Your task to perform on an android device: Empty the shopping cart on bestbuy. Search for "asus zenbook" on bestbuy, select the first entry, and add it to the cart. Image 0: 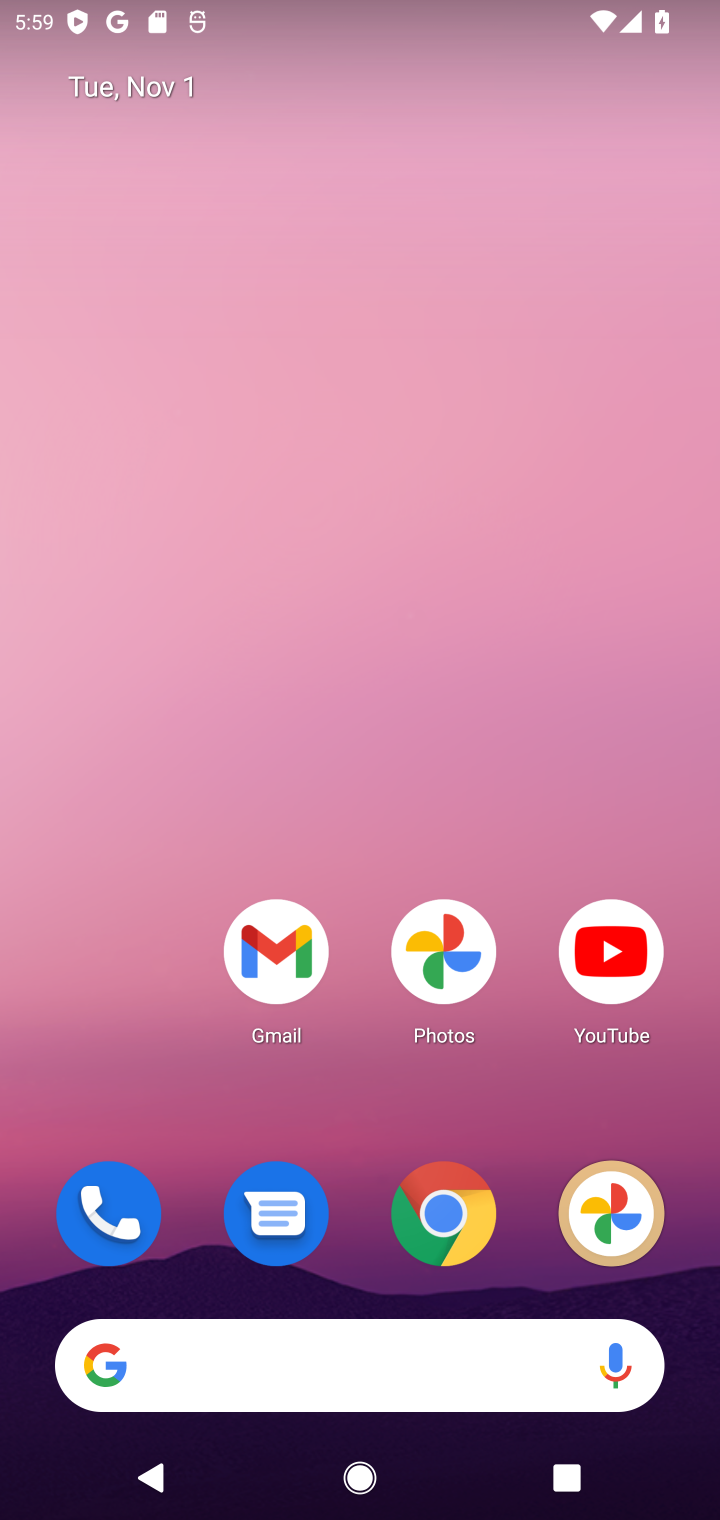
Step 0: click (444, 1230)
Your task to perform on an android device: Empty the shopping cart on bestbuy. Search for "asus zenbook" on bestbuy, select the first entry, and add it to the cart. Image 1: 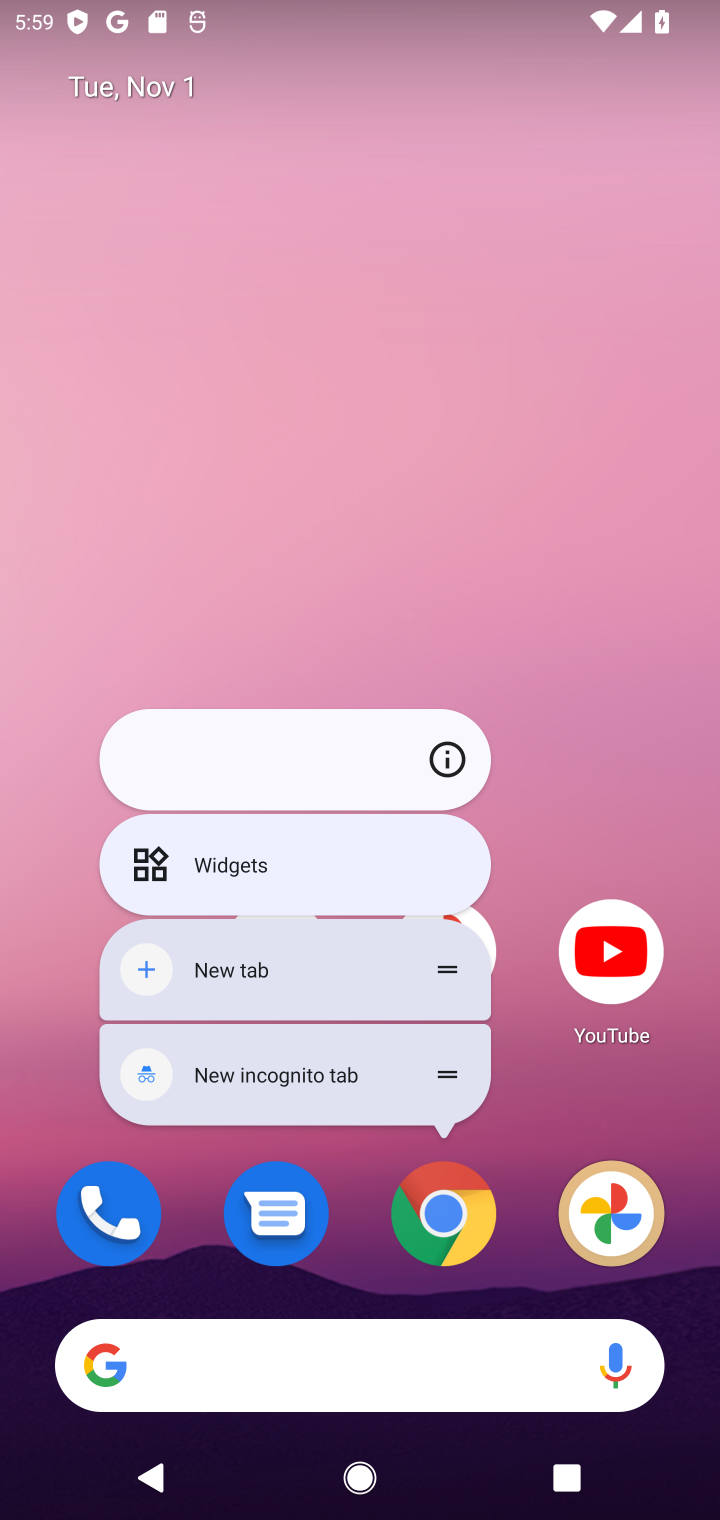
Step 1: click (443, 1214)
Your task to perform on an android device: Empty the shopping cart on bestbuy. Search for "asus zenbook" on bestbuy, select the first entry, and add it to the cart. Image 2: 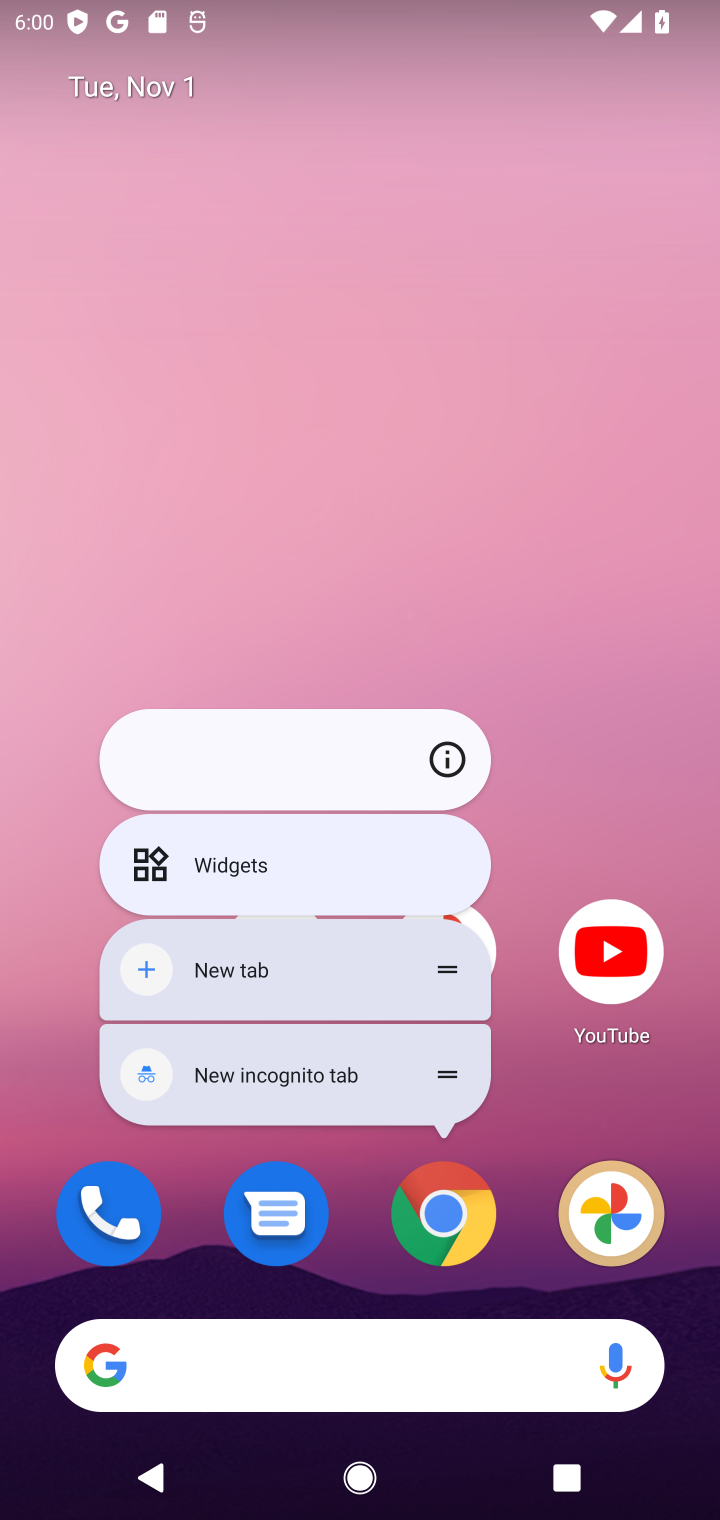
Step 2: click (448, 1218)
Your task to perform on an android device: Empty the shopping cart on bestbuy. Search for "asus zenbook" on bestbuy, select the first entry, and add it to the cart. Image 3: 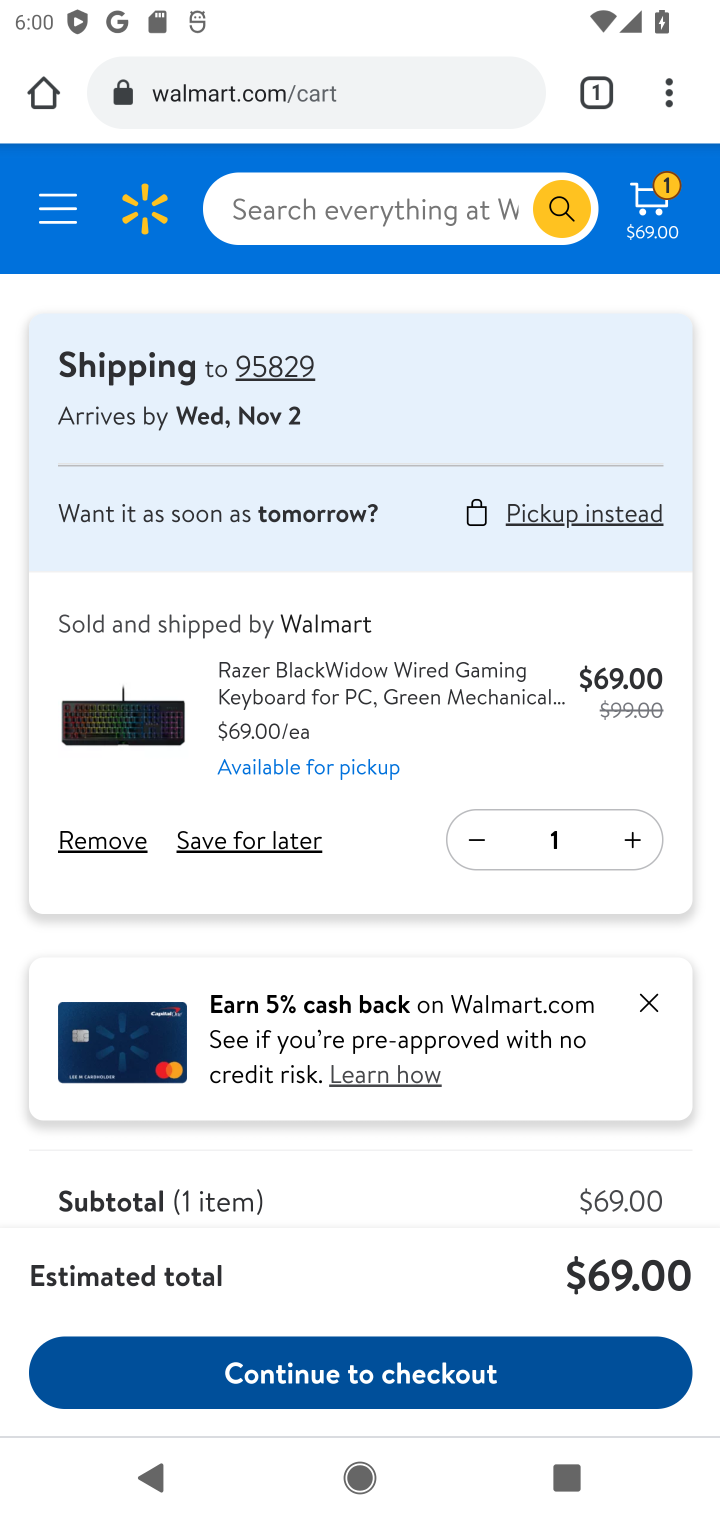
Step 3: click (369, 121)
Your task to perform on an android device: Empty the shopping cart on bestbuy. Search for "asus zenbook" on bestbuy, select the first entry, and add it to the cart. Image 4: 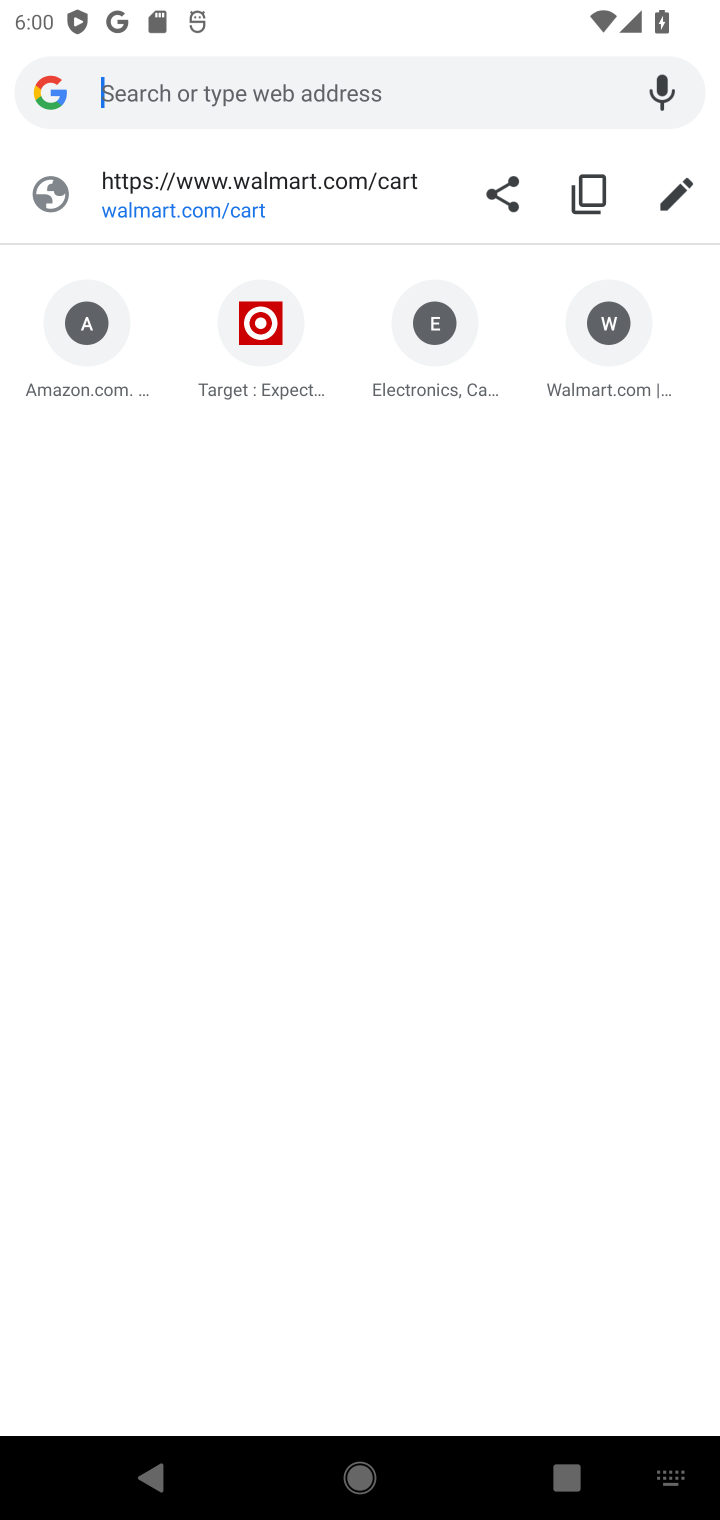
Step 4: type "asus zenbook"
Your task to perform on an android device: Empty the shopping cart on bestbuy. Search for "asus zenbook" on bestbuy, select the first entry, and add it to the cart. Image 5: 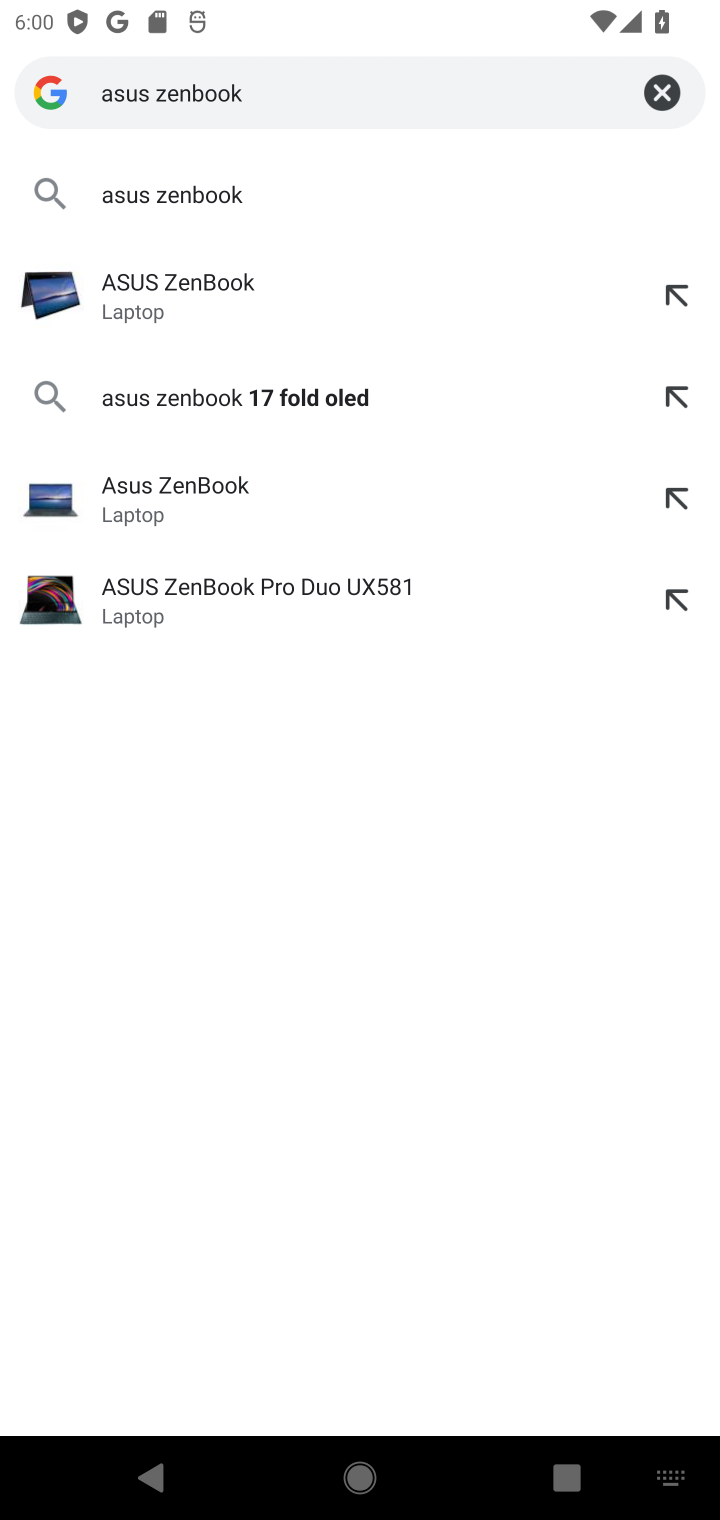
Step 5: click (320, 199)
Your task to perform on an android device: Empty the shopping cart on bestbuy. Search for "asus zenbook" on bestbuy, select the first entry, and add it to the cart. Image 6: 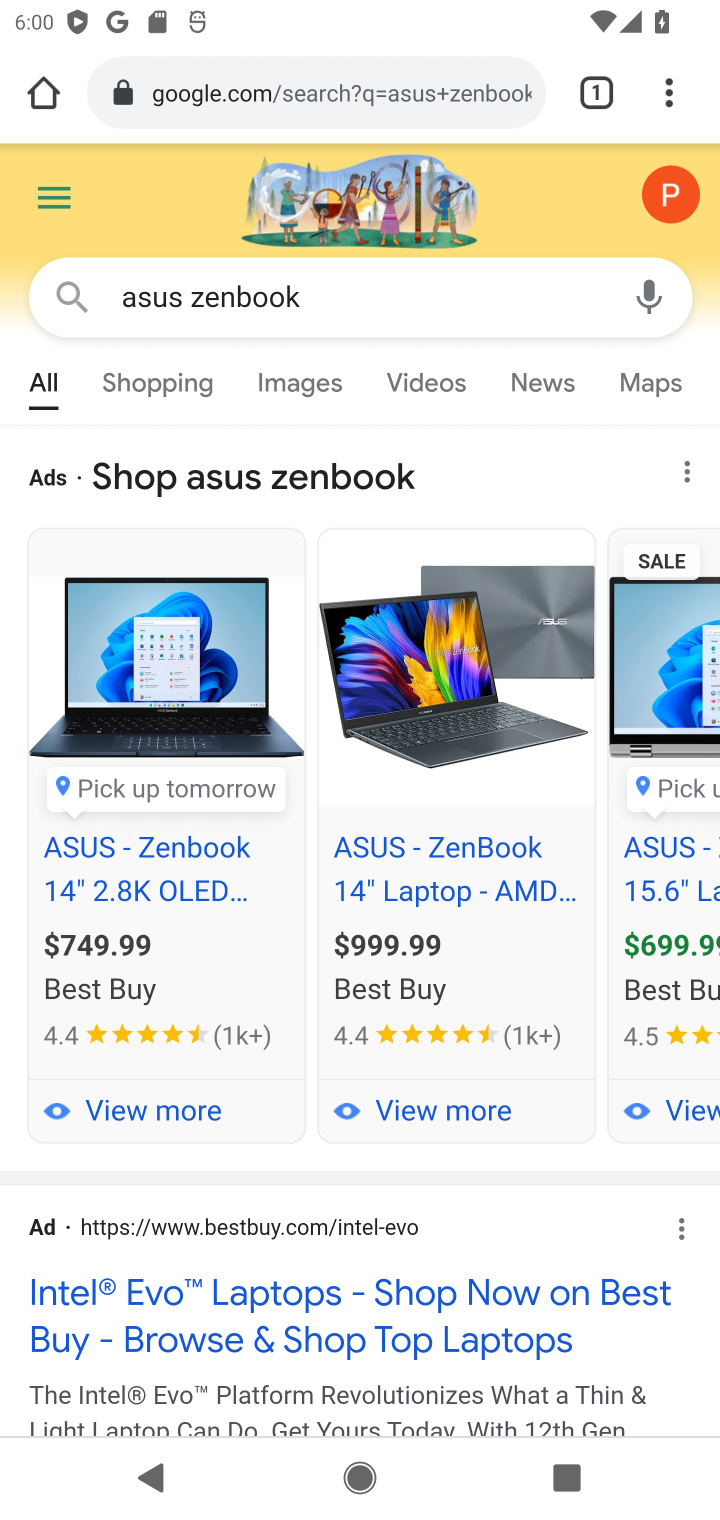
Step 6: click (207, 73)
Your task to perform on an android device: Empty the shopping cart on bestbuy. Search for "asus zenbook" on bestbuy, select the first entry, and add it to the cart. Image 7: 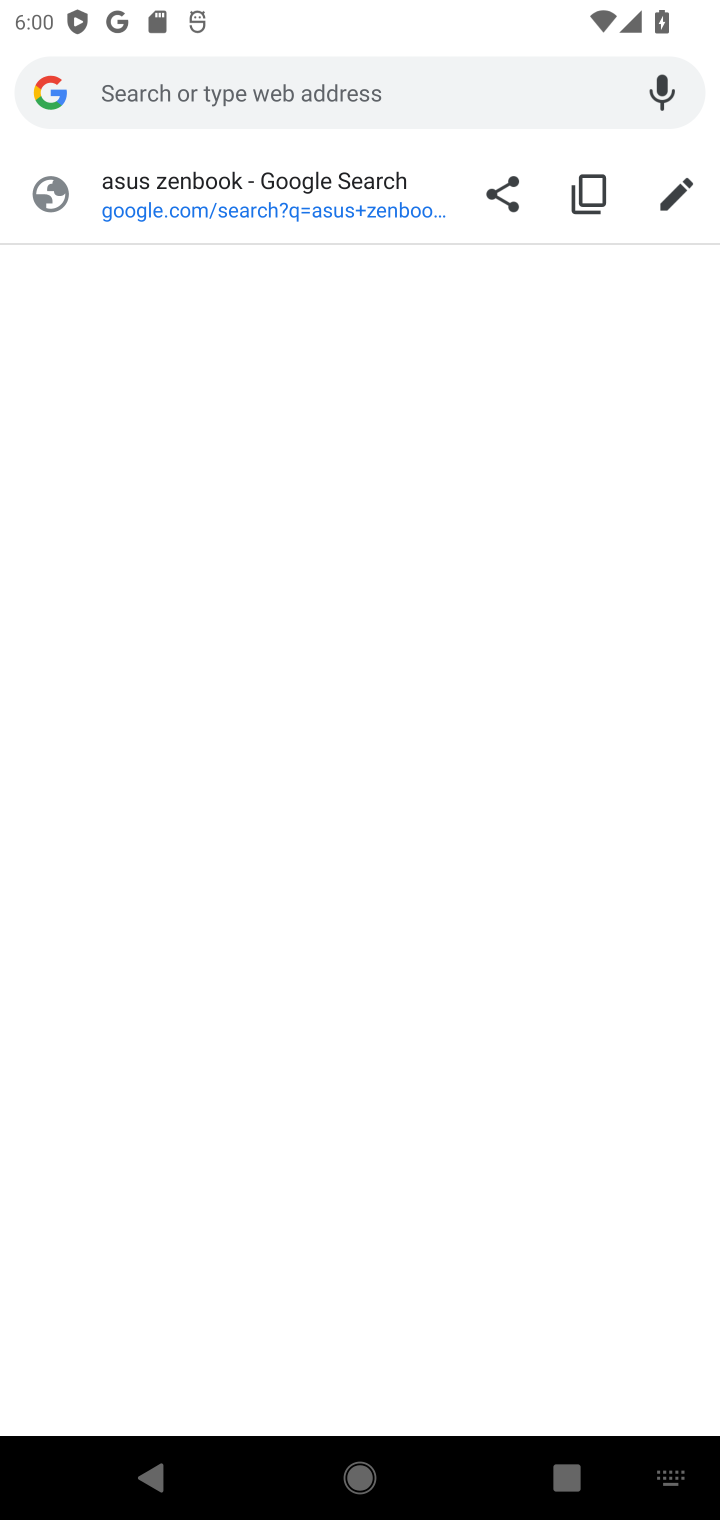
Step 7: type "best buy"
Your task to perform on an android device: Empty the shopping cart on bestbuy. Search for "asus zenbook" on bestbuy, select the first entry, and add it to the cart. Image 8: 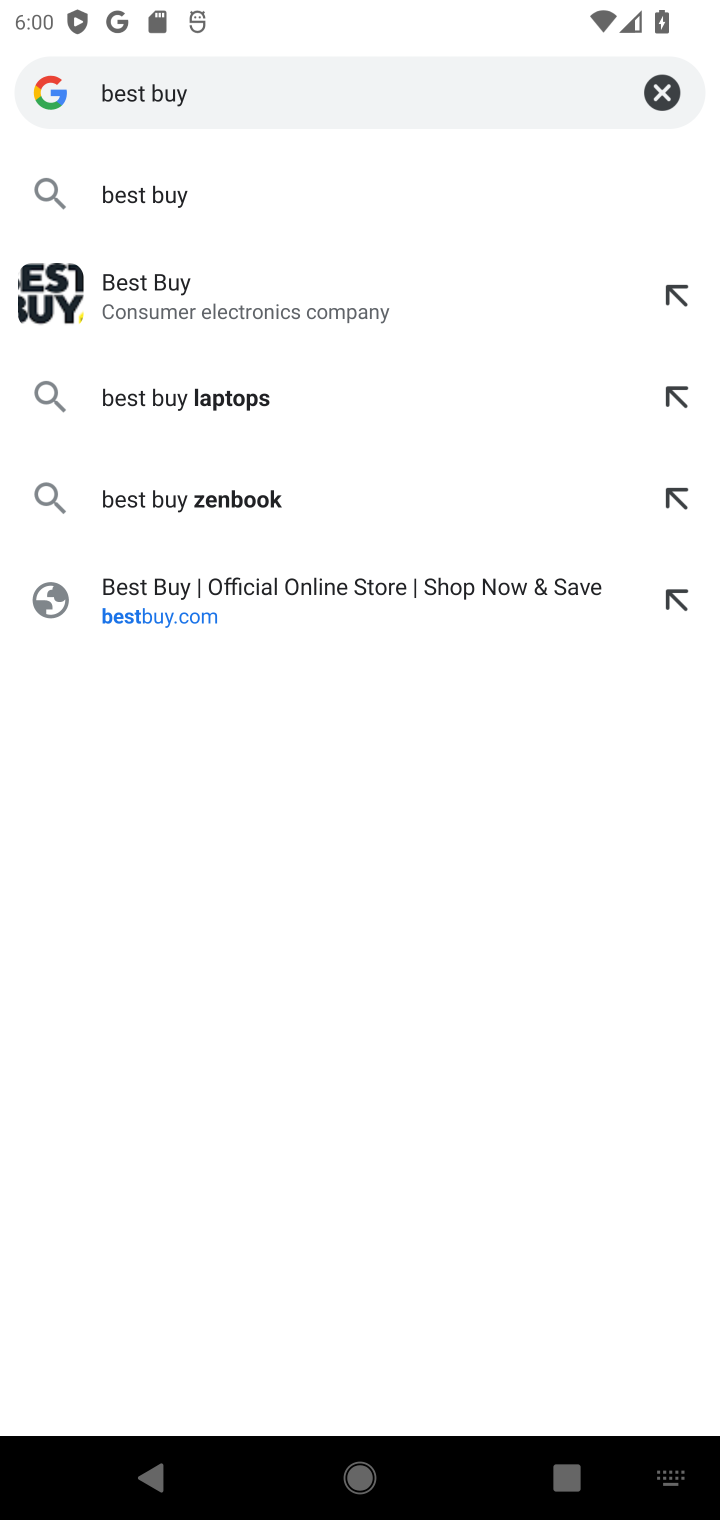
Step 8: click (148, 319)
Your task to perform on an android device: Empty the shopping cart on bestbuy. Search for "asus zenbook" on bestbuy, select the first entry, and add it to the cart. Image 9: 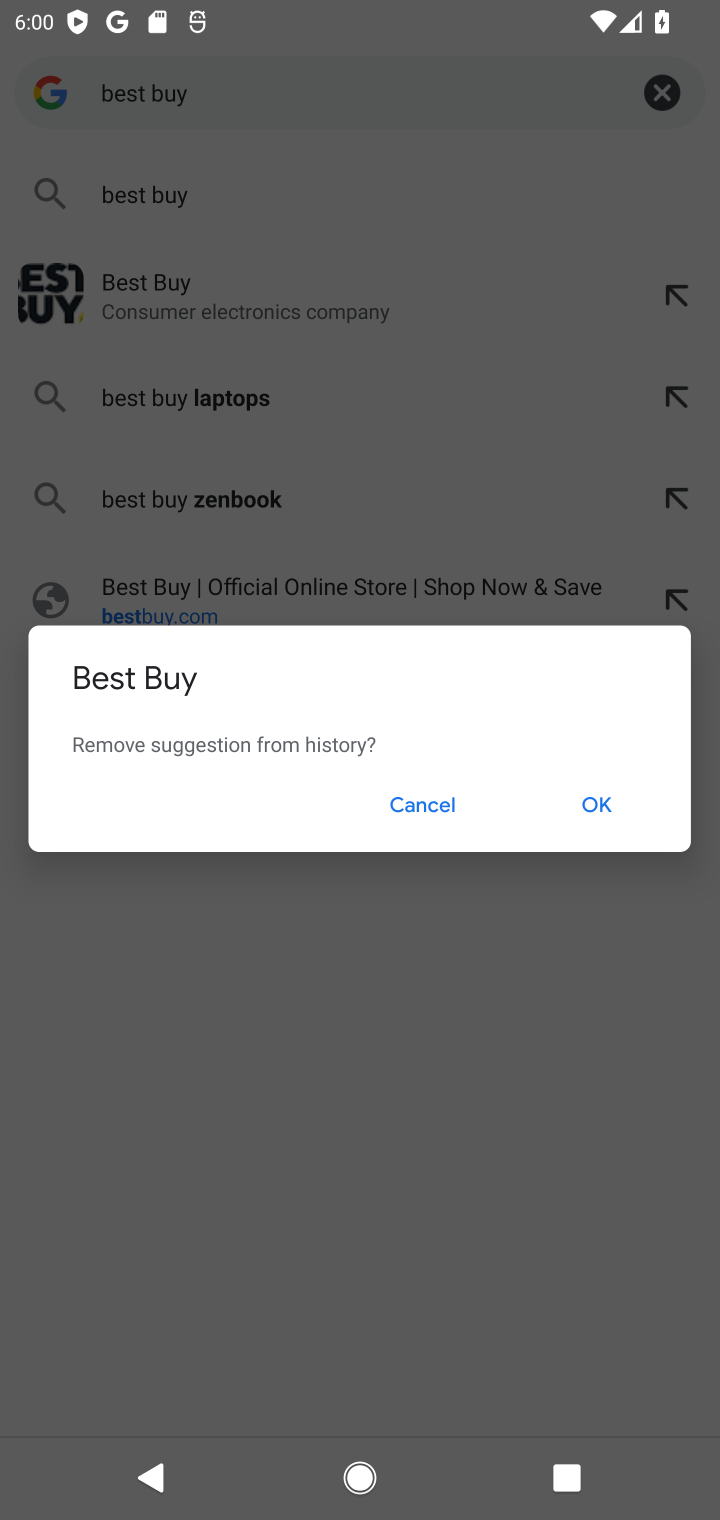
Step 9: click (601, 826)
Your task to perform on an android device: Empty the shopping cart on bestbuy. Search for "asus zenbook" on bestbuy, select the first entry, and add it to the cart. Image 10: 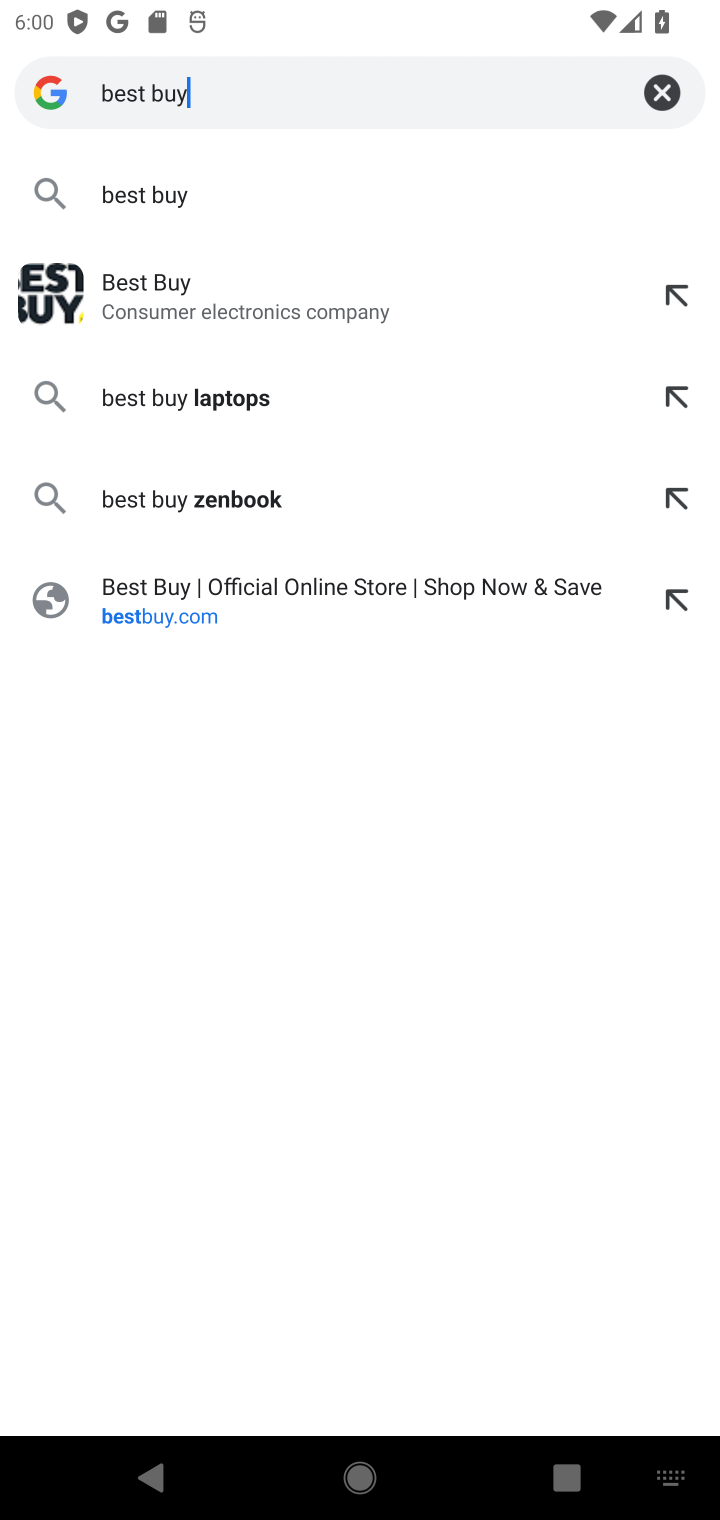
Step 10: click (247, 584)
Your task to perform on an android device: Empty the shopping cart on bestbuy. Search for "asus zenbook" on bestbuy, select the first entry, and add it to the cart. Image 11: 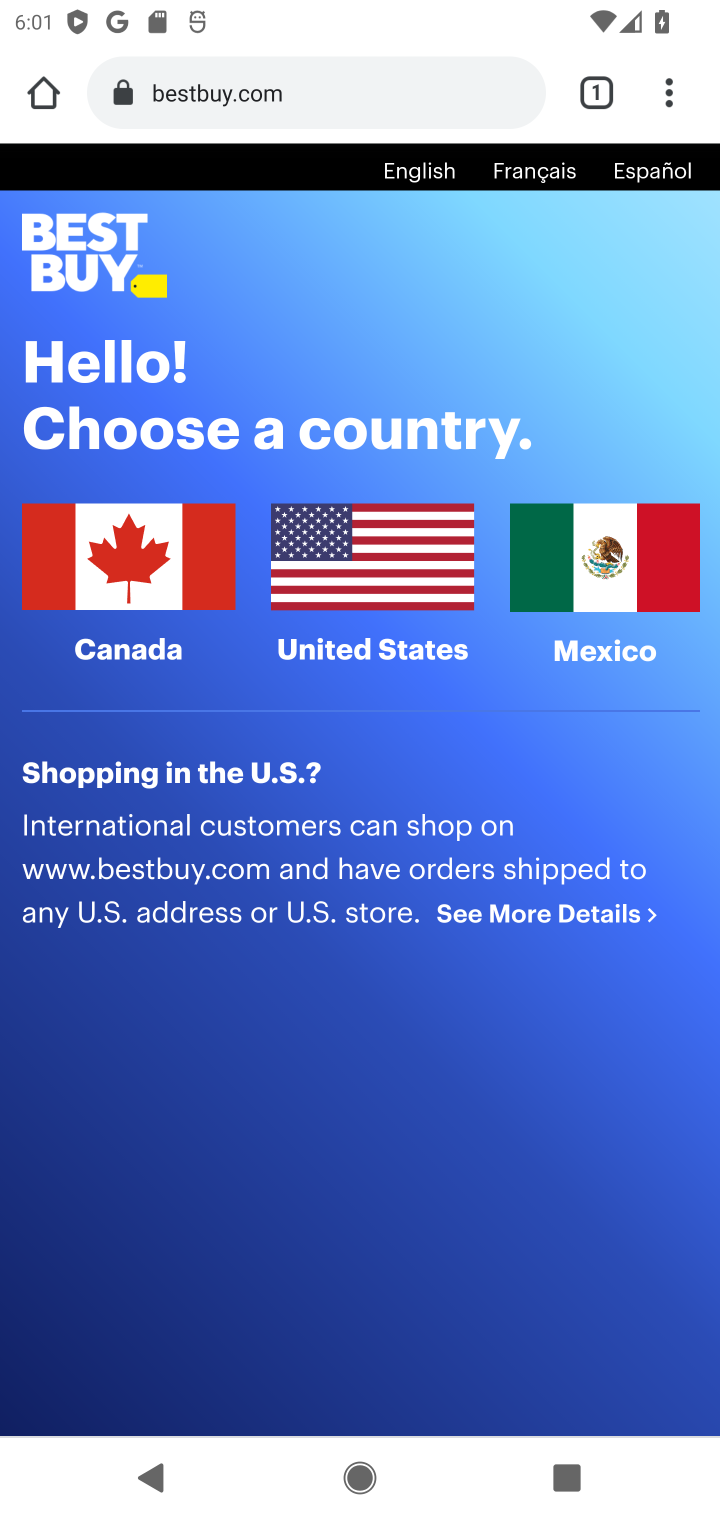
Step 11: click (284, 552)
Your task to perform on an android device: Empty the shopping cart on bestbuy. Search for "asus zenbook" on bestbuy, select the first entry, and add it to the cart. Image 12: 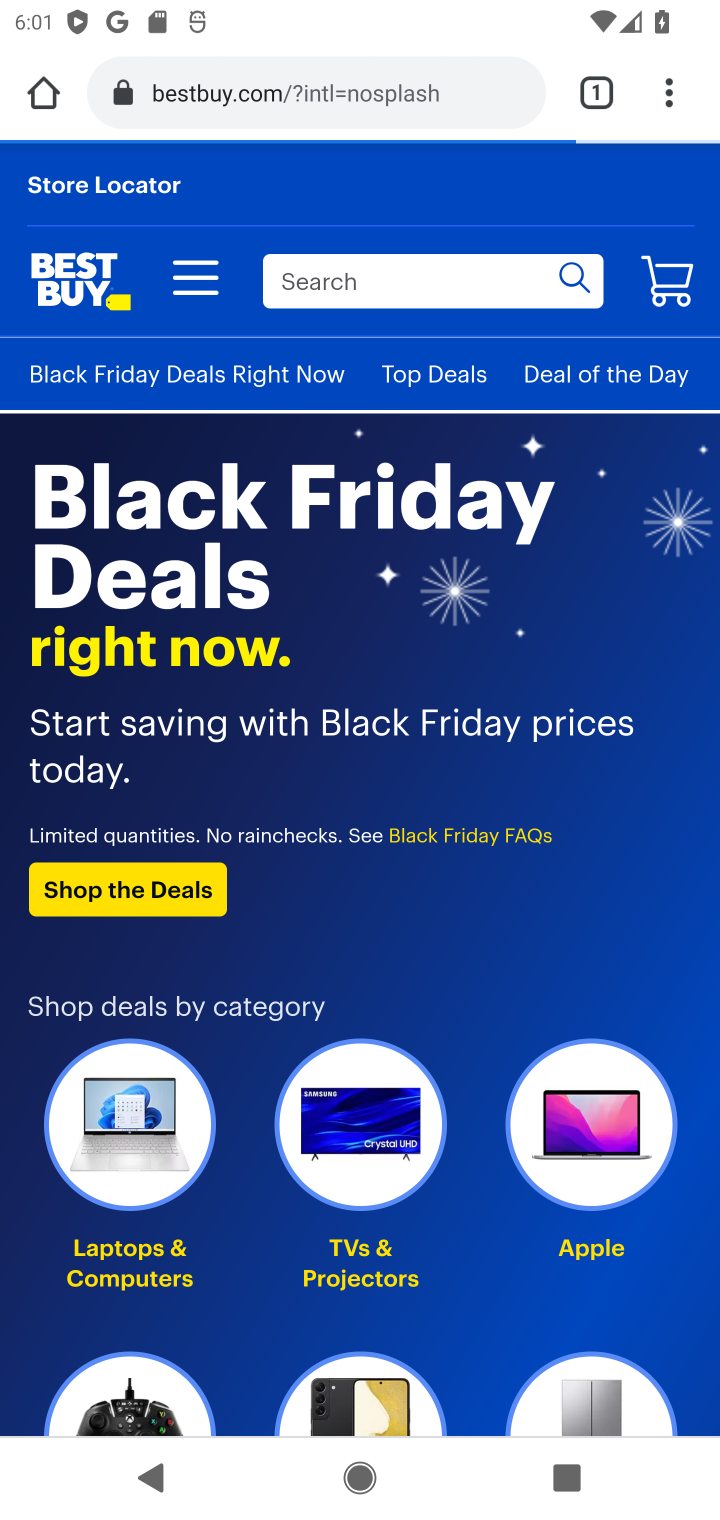
Step 12: click (329, 273)
Your task to perform on an android device: Empty the shopping cart on bestbuy. Search for "asus zenbook" on bestbuy, select the first entry, and add it to the cart. Image 13: 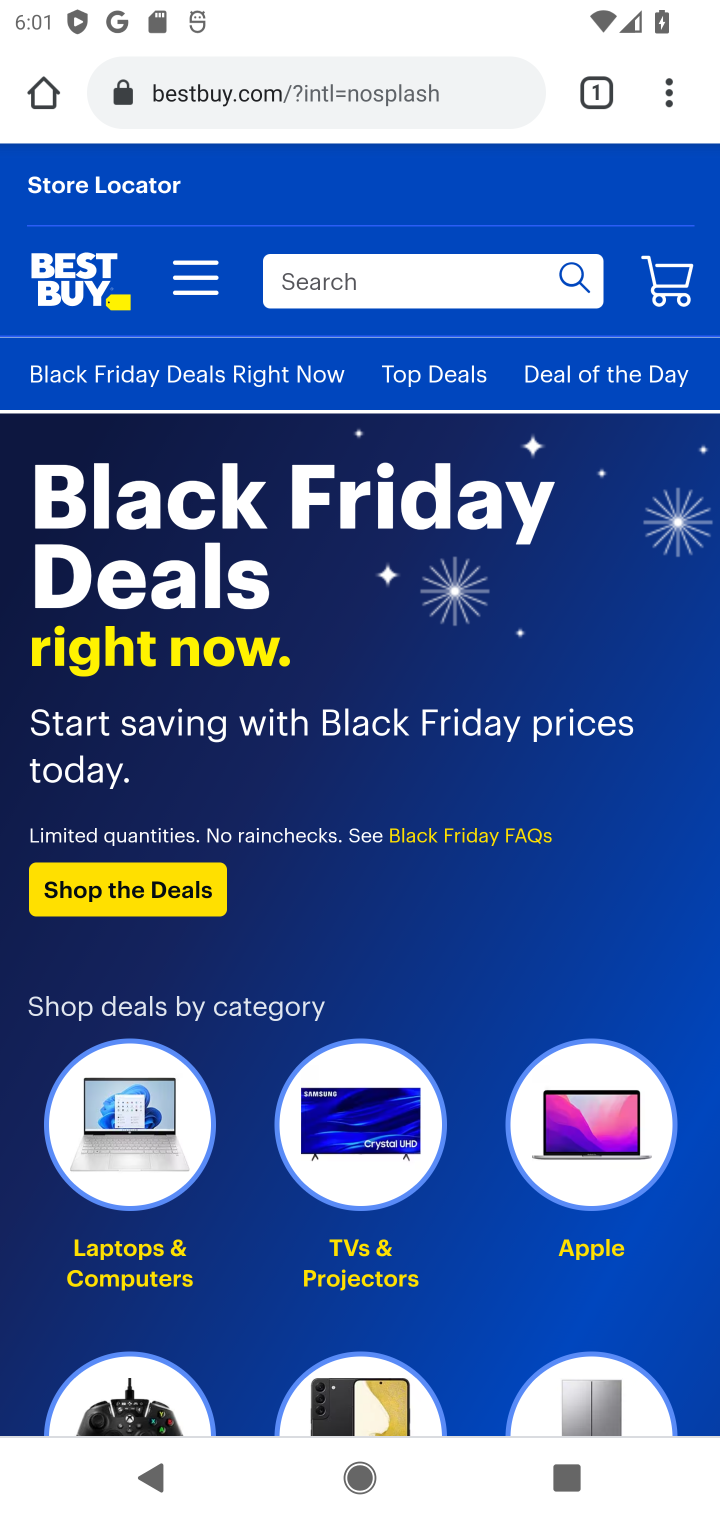
Step 13: click (298, 254)
Your task to perform on an android device: Empty the shopping cart on bestbuy. Search for "asus zenbook" on bestbuy, select the first entry, and add it to the cart. Image 14: 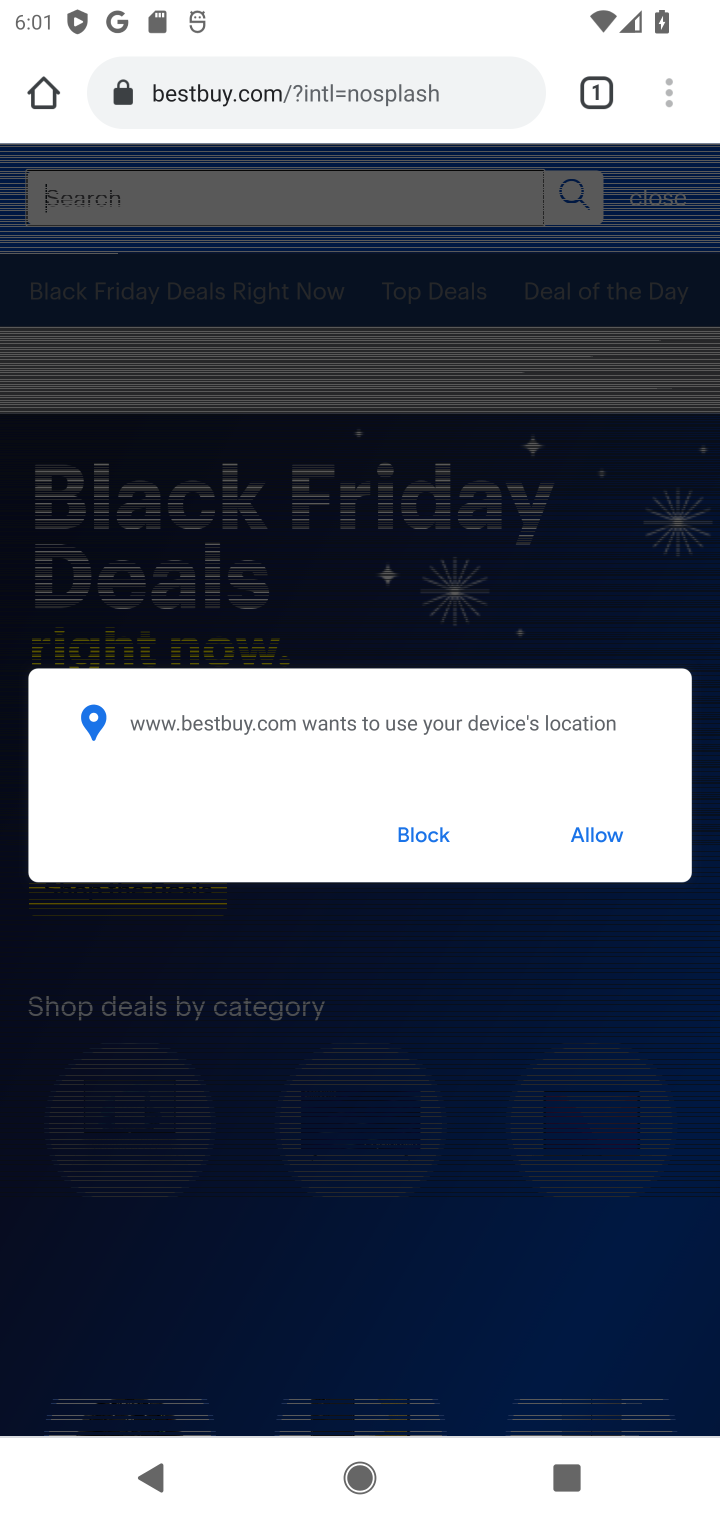
Step 14: click (425, 831)
Your task to perform on an android device: Empty the shopping cart on bestbuy. Search for "asus zenbook" on bestbuy, select the first entry, and add it to the cart. Image 15: 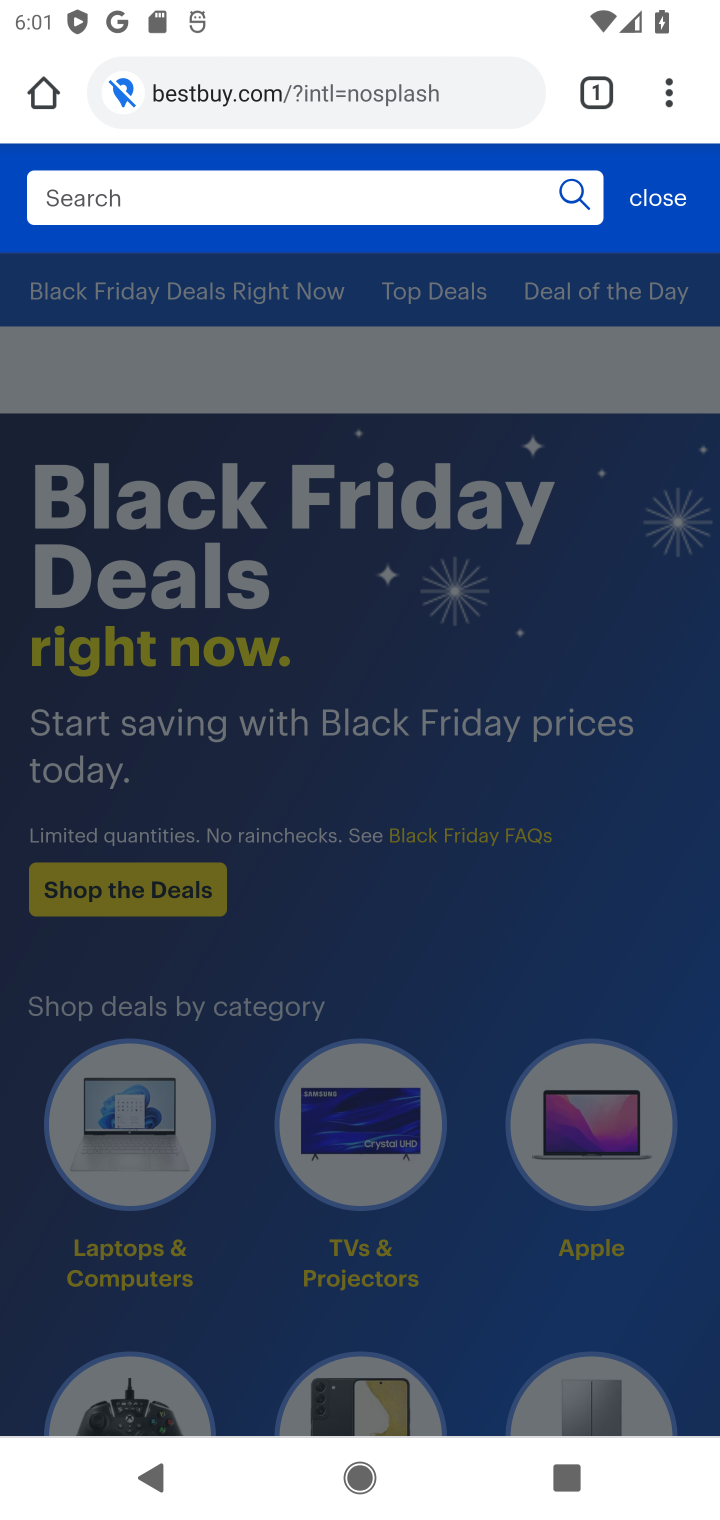
Step 15: type "asus zenbook"
Your task to perform on an android device: Empty the shopping cart on bestbuy. Search for "asus zenbook" on bestbuy, select the first entry, and add it to the cart. Image 16: 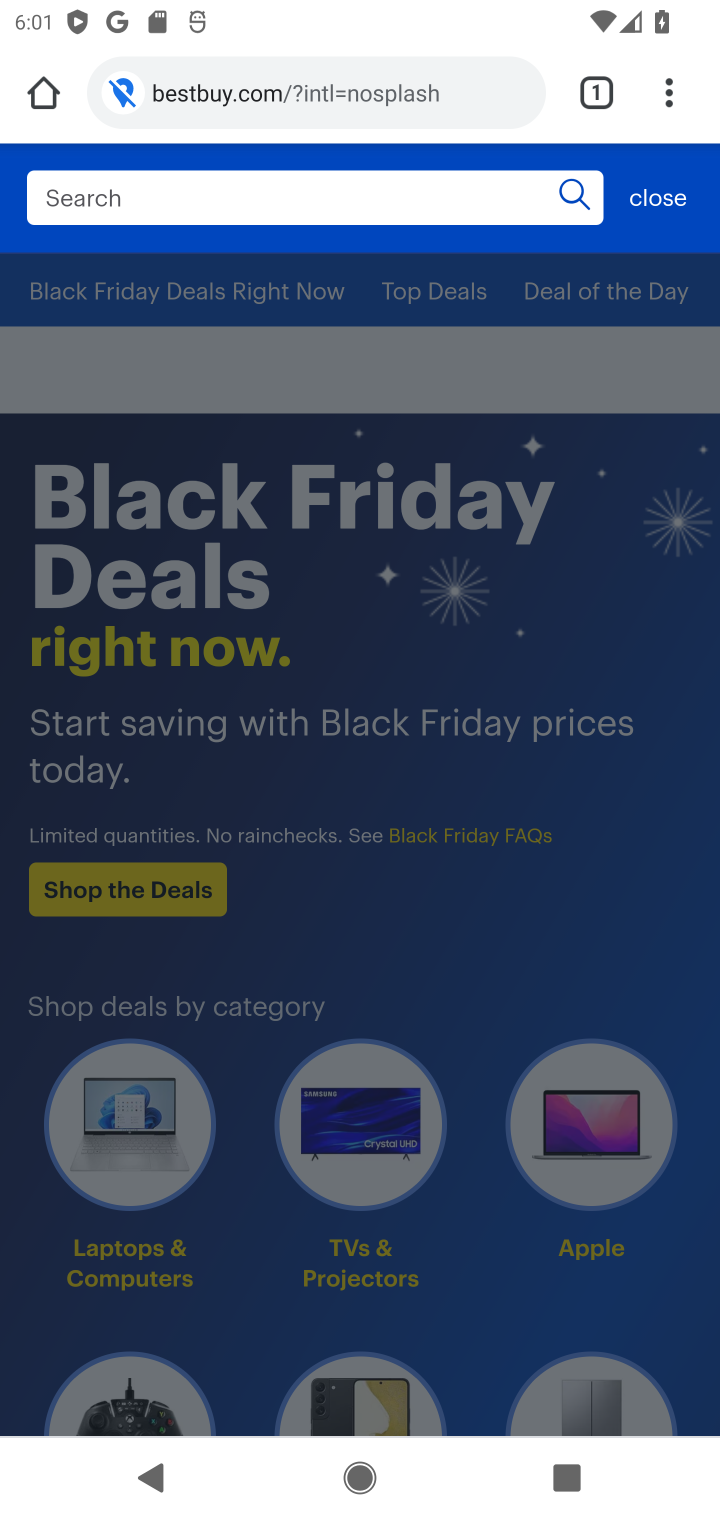
Step 16: type ""
Your task to perform on an android device: Empty the shopping cart on bestbuy. Search for "asus zenbook" on bestbuy, select the first entry, and add it to the cart. Image 17: 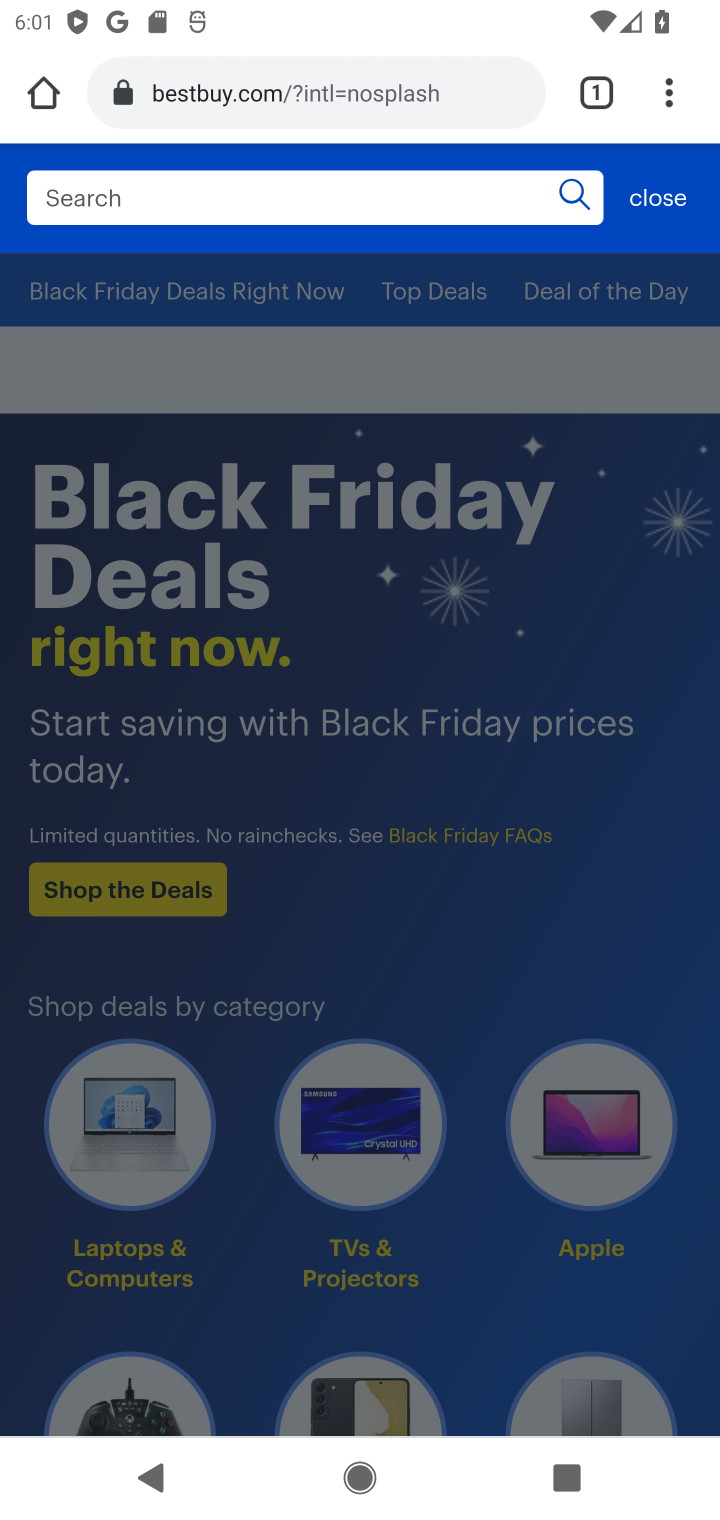
Step 17: click (116, 190)
Your task to perform on an android device: Empty the shopping cart on bestbuy. Search for "asus zenbook" on bestbuy, select the first entry, and add it to the cart. Image 18: 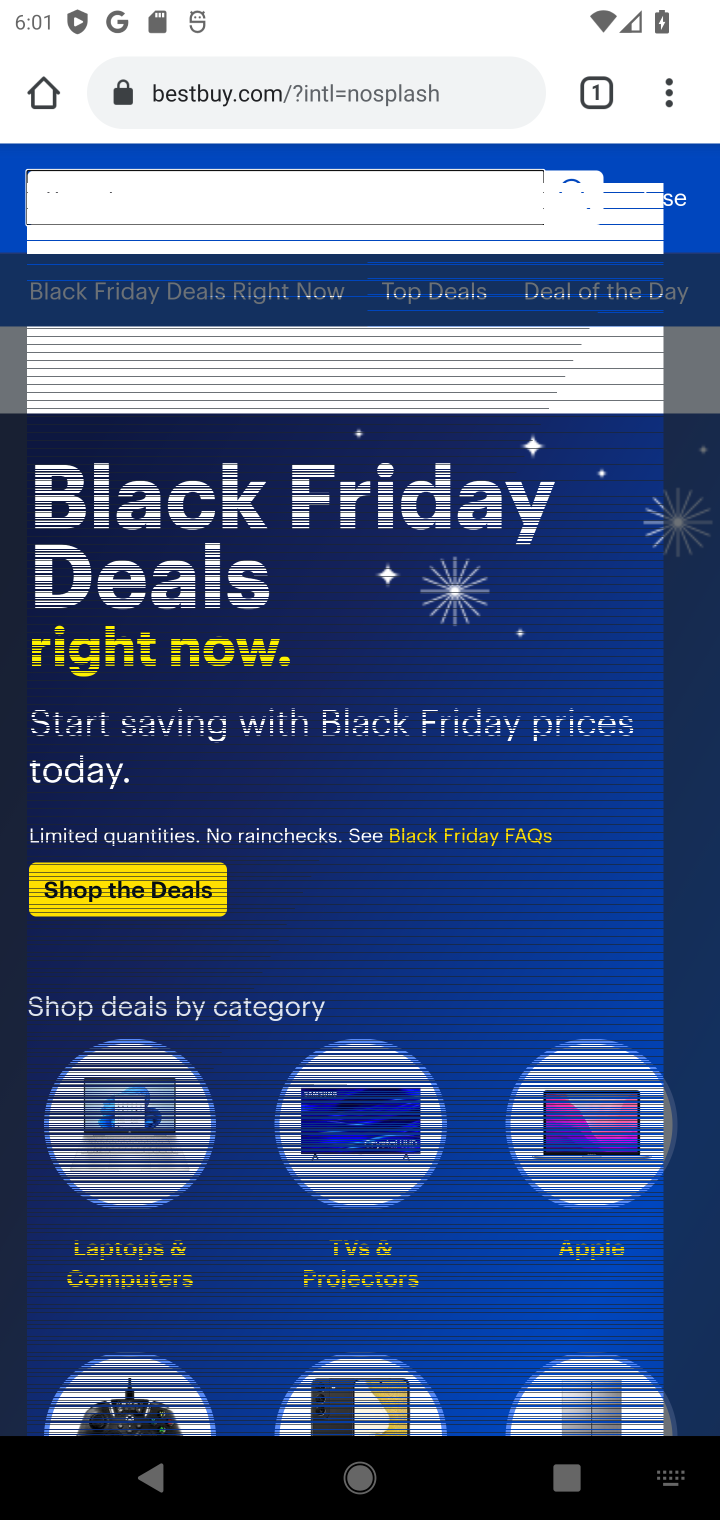
Step 18: type "asus zenbook"
Your task to perform on an android device: Empty the shopping cart on bestbuy. Search for "asus zenbook" on bestbuy, select the first entry, and add it to the cart. Image 19: 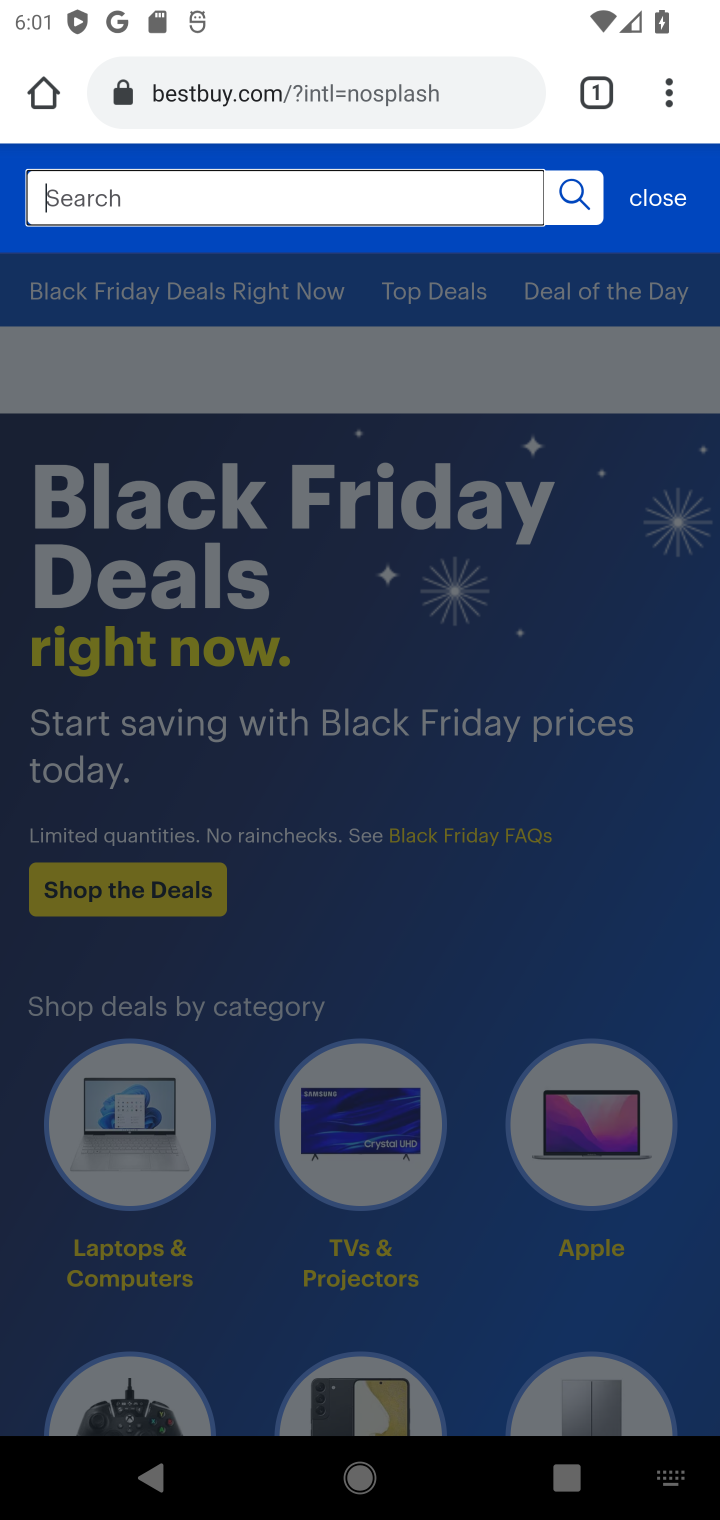
Step 19: type ""
Your task to perform on an android device: Empty the shopping cart on bestbuy. Search for "asus zenbook" on bestbuy, select the first entry, and add it to the cart. Image 20: 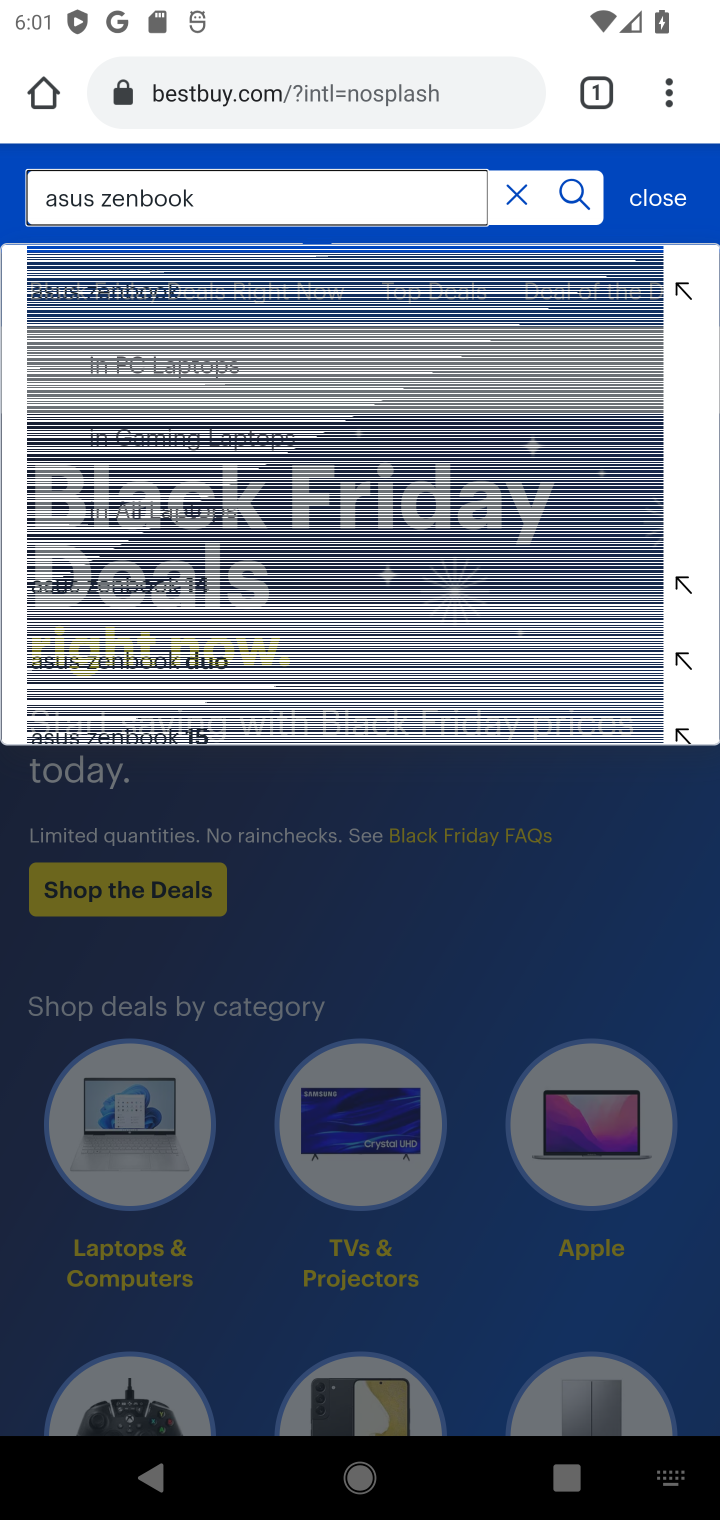
Step 20: press enter
Your task to perform on an android device: Empty the shopping cart on bestbuy. Search for "asus zenbook" on bestbuy, select the first entry, and add it to the cart. Image 21: 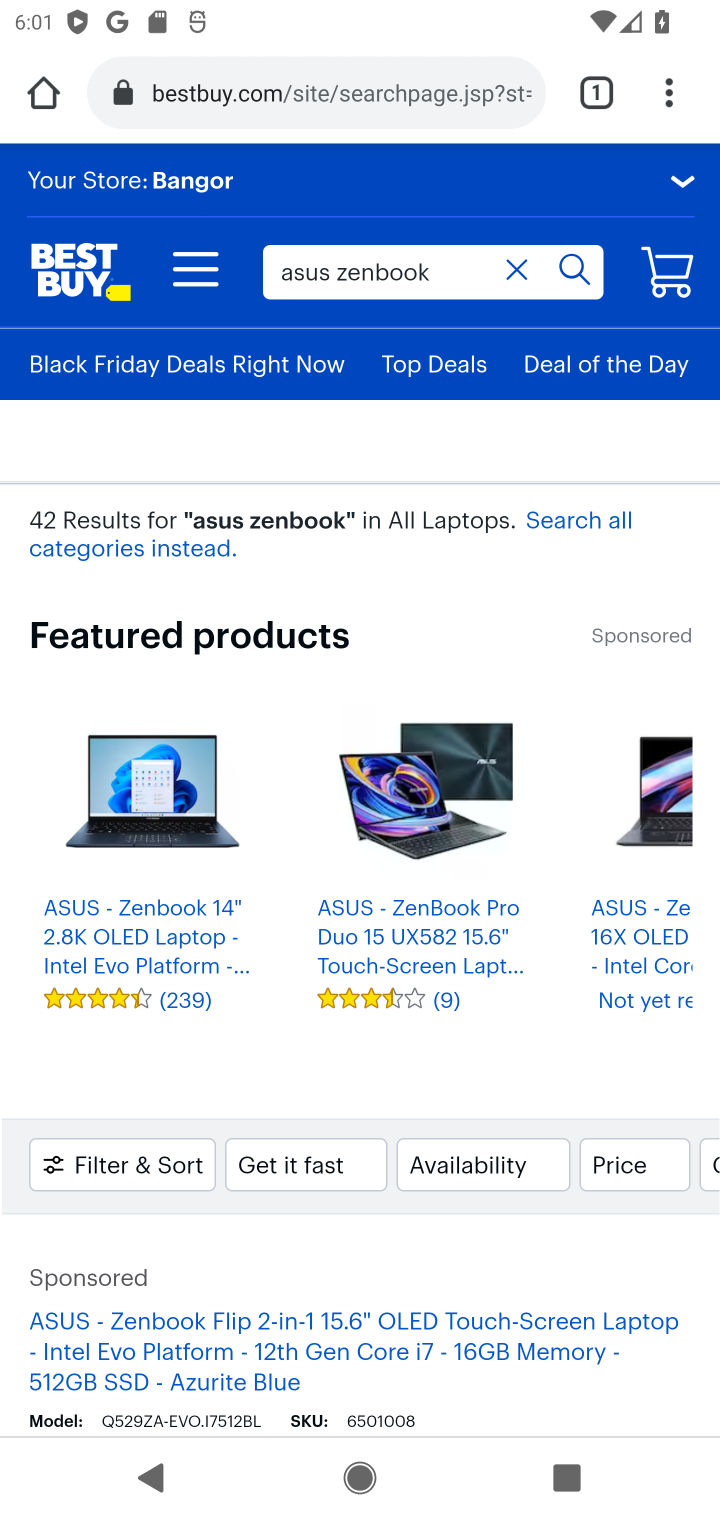
Step 21: click (231, 1338)
Your task to perform on an android device: Empty the shopping cart on bestbuy. Search for "asus zenbook" on bestbuy, select the first entry, and add it to the cart. Image 22: 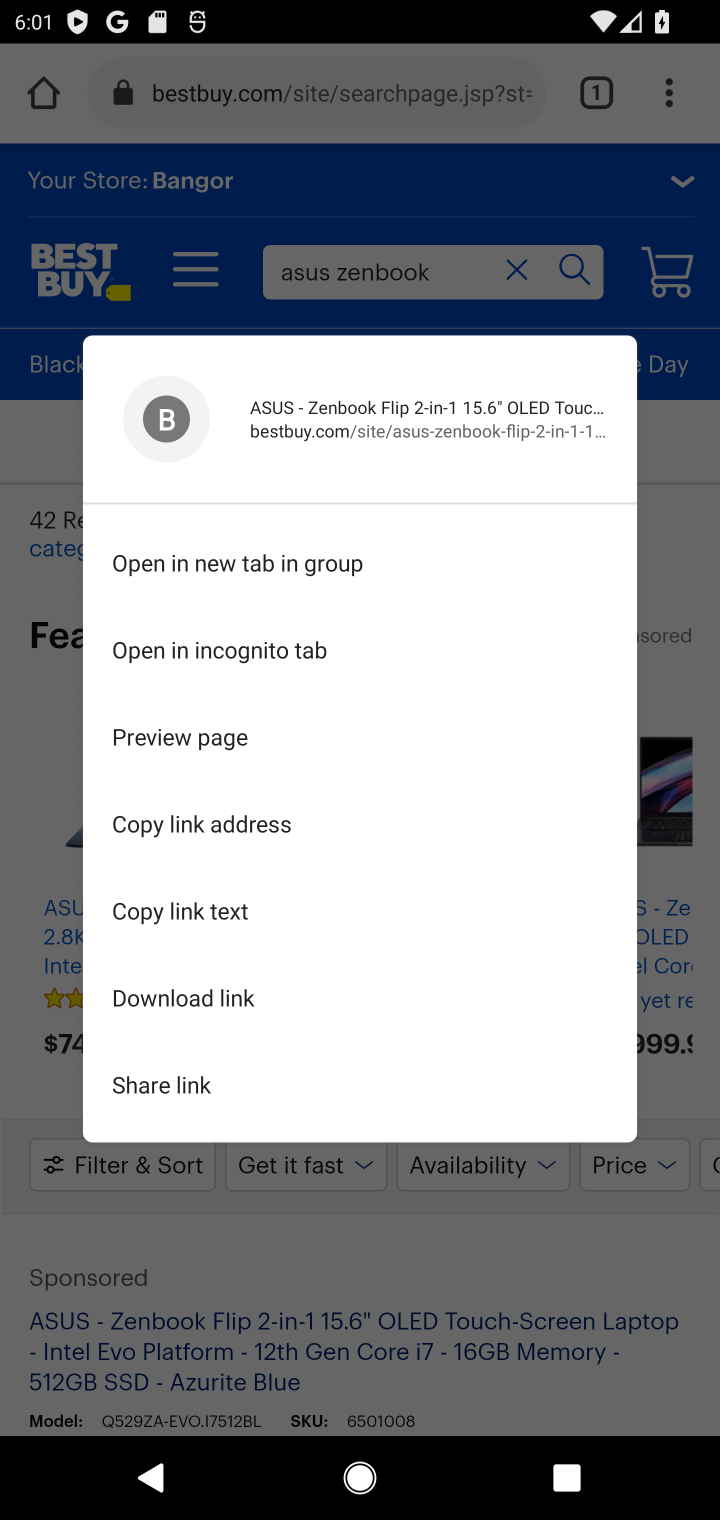
Step 22: click (229, 1314)
Your task to perform on an android device: Empty the shopping cart on bestbuy. Search for "asus zenbook" on bestbuy, select the first entry, and add it to the cart. Image 23: 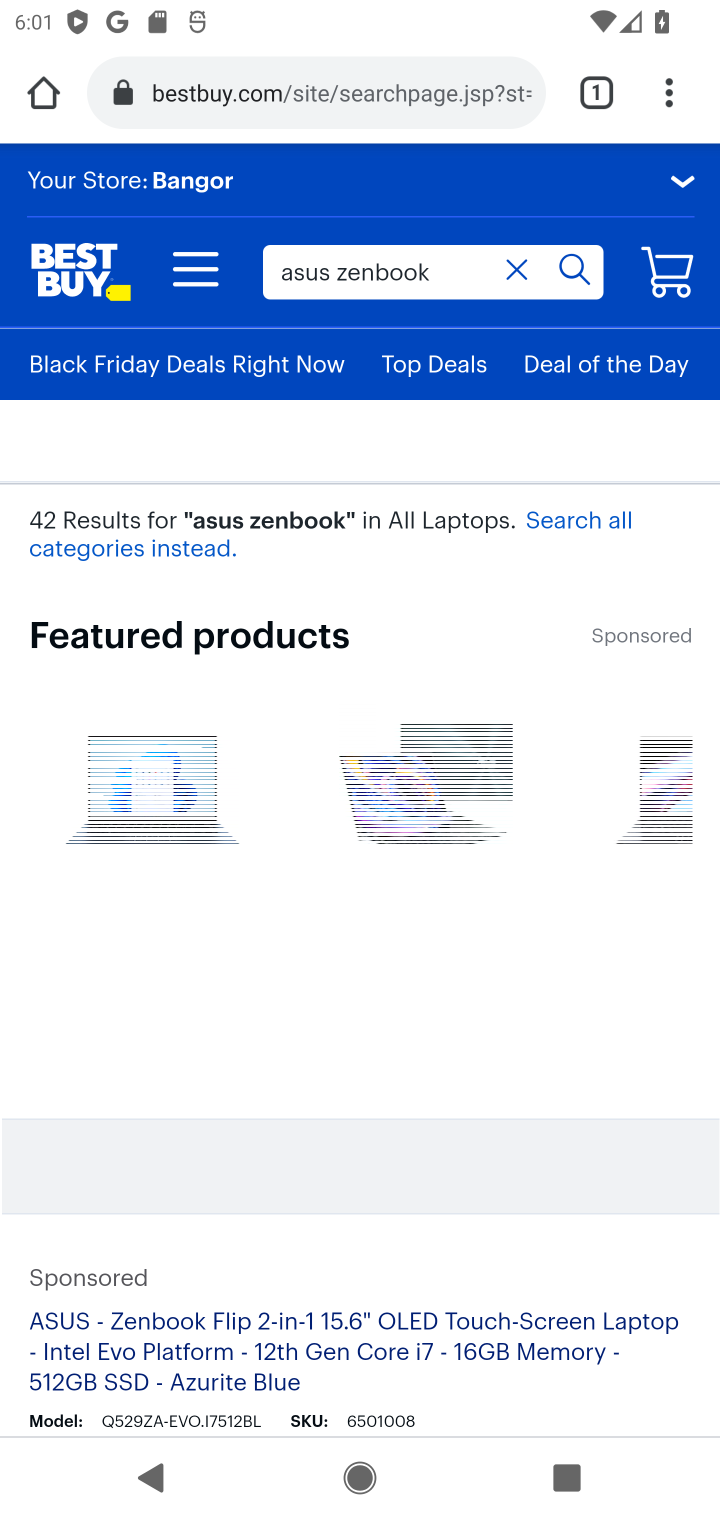
Step 23: click (229, 1314)
Your task to perform on an android device: Empty the shopping cart on bestbuy. Search for "asus zenbook" on bestbuy, select the first entry, and add it to the cart. Image 24: 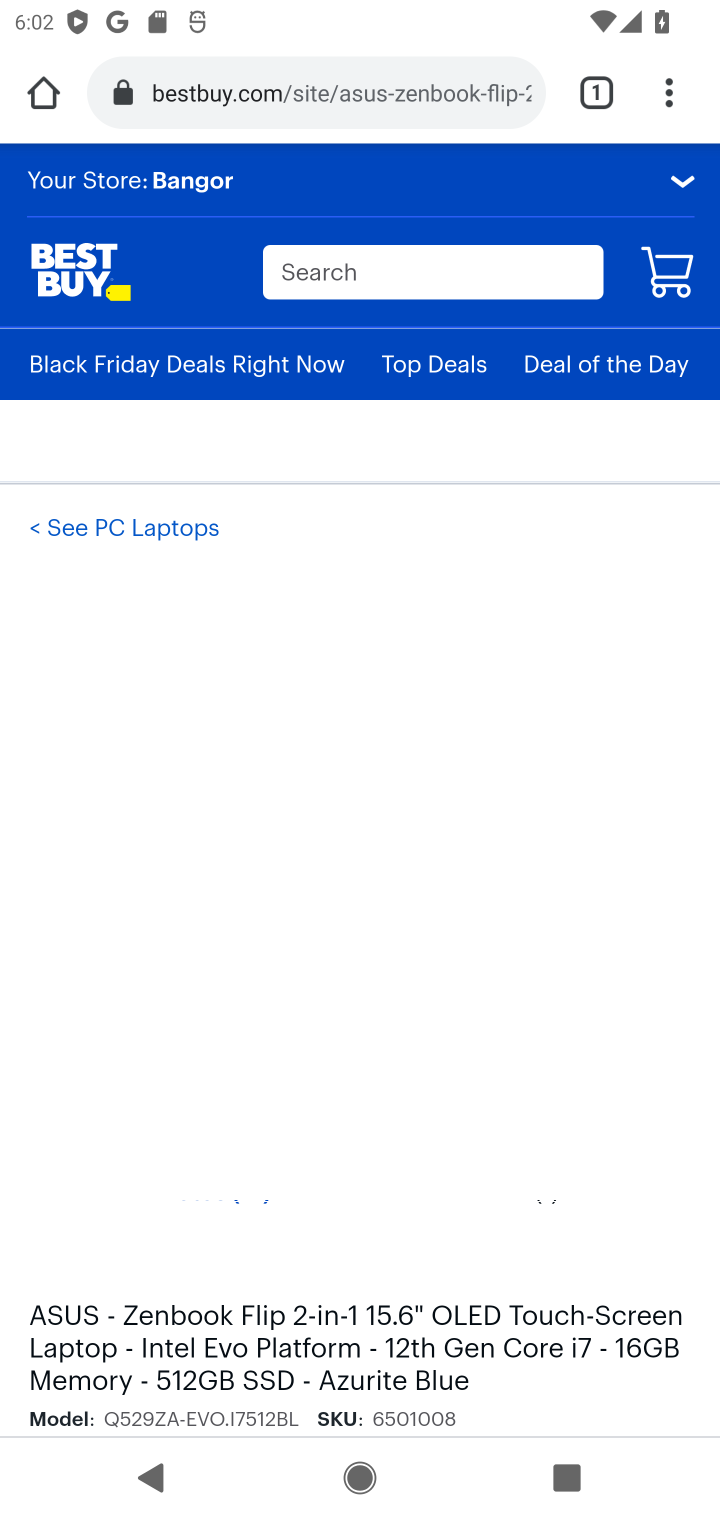
Step 24: drag from (340, 938) to (428, 537)
Your task to perform on an android device: Empty the shopping cart on bestbuy. Search for "asus zenbook" on bestbuy, select the first entry, and add it to the cart. Image 25: 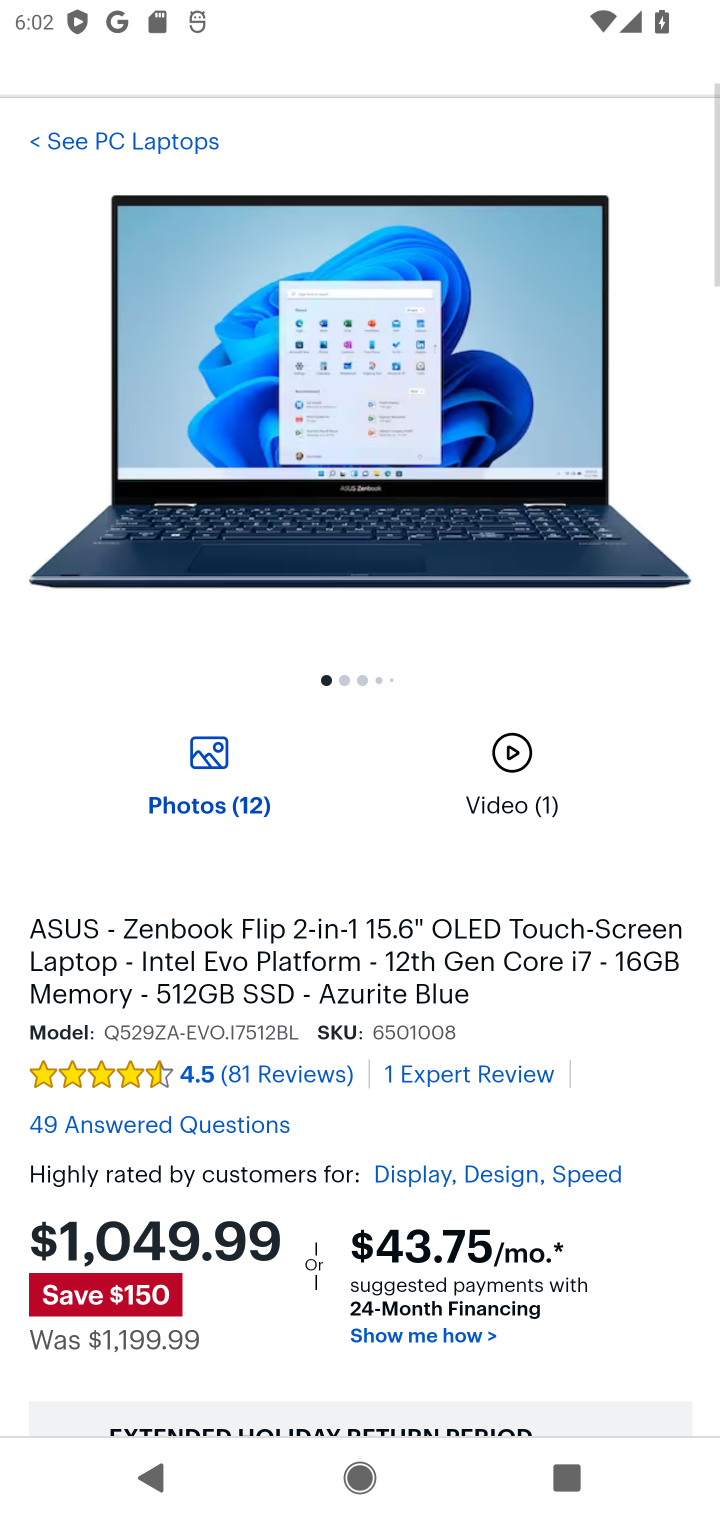
Step 25: drag from (428, 714) to (422, 591)
Your task to perform on an android device: Empty the shopping cart on bestbuy. Search for "asus zenbook" on bestbuy, select the first entry, and add it to the cart. Image 26: 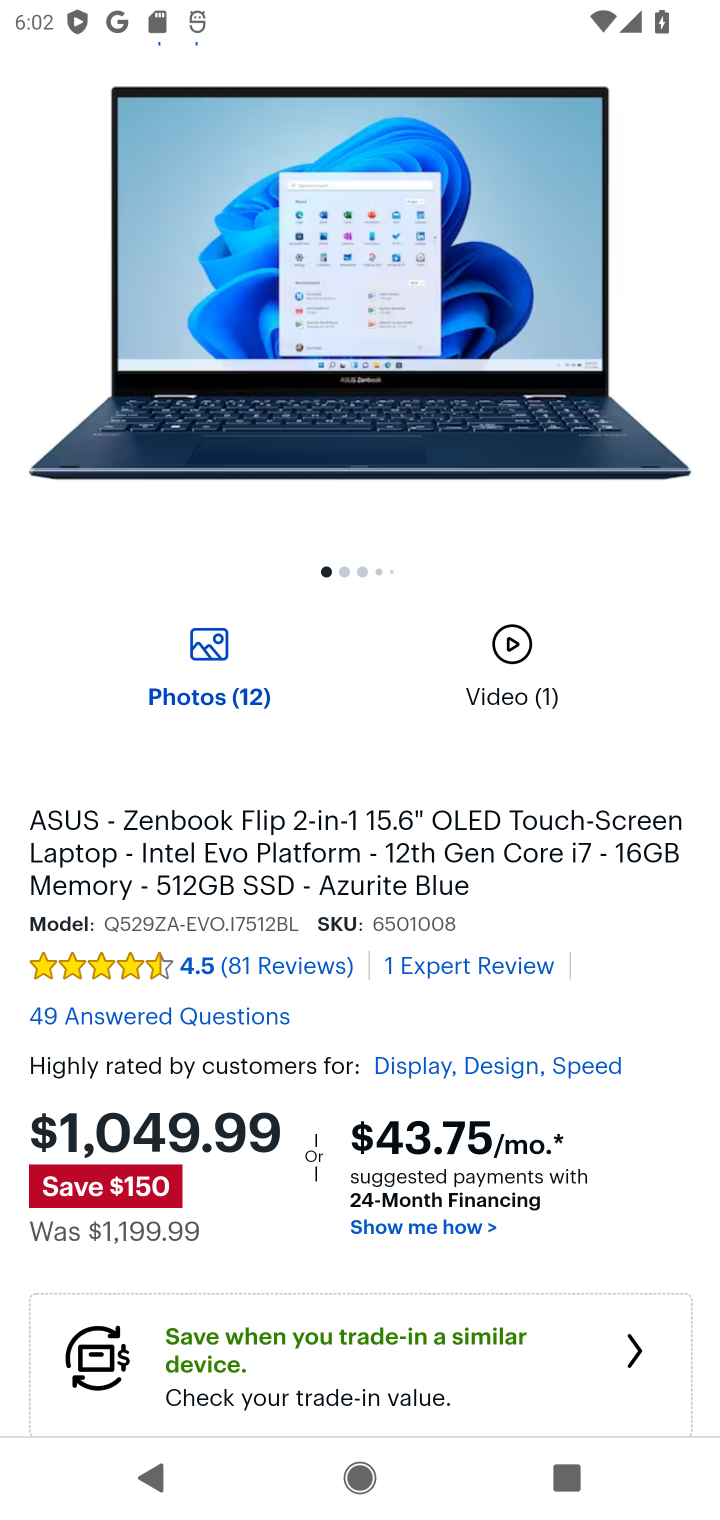
Step 26: drag from (404, 1153) to (408, 507)
Your task to perform on an android device: Empty the shopping cart on bestbuy. Search for "asus zenbook" on bestbuy, select the first entry, and add it to the cart. Image 27: 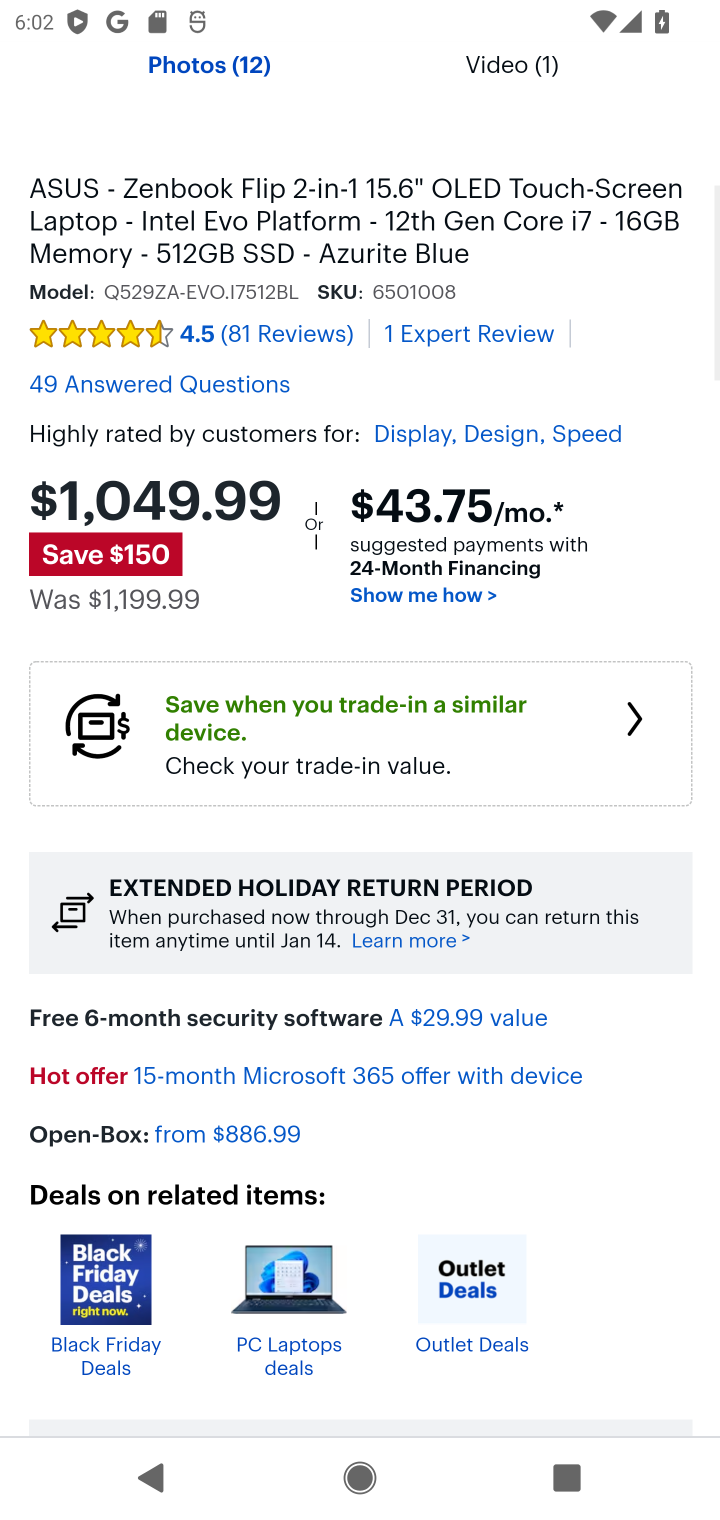
Step 27: drag from (559, 777) to (594, 435)
Your task to perform on an android device: Empty the shopping cart on bestbuy. Search for "asus zenbook" on bestbuy, select the first entry, and add it to the cart. Image 28: 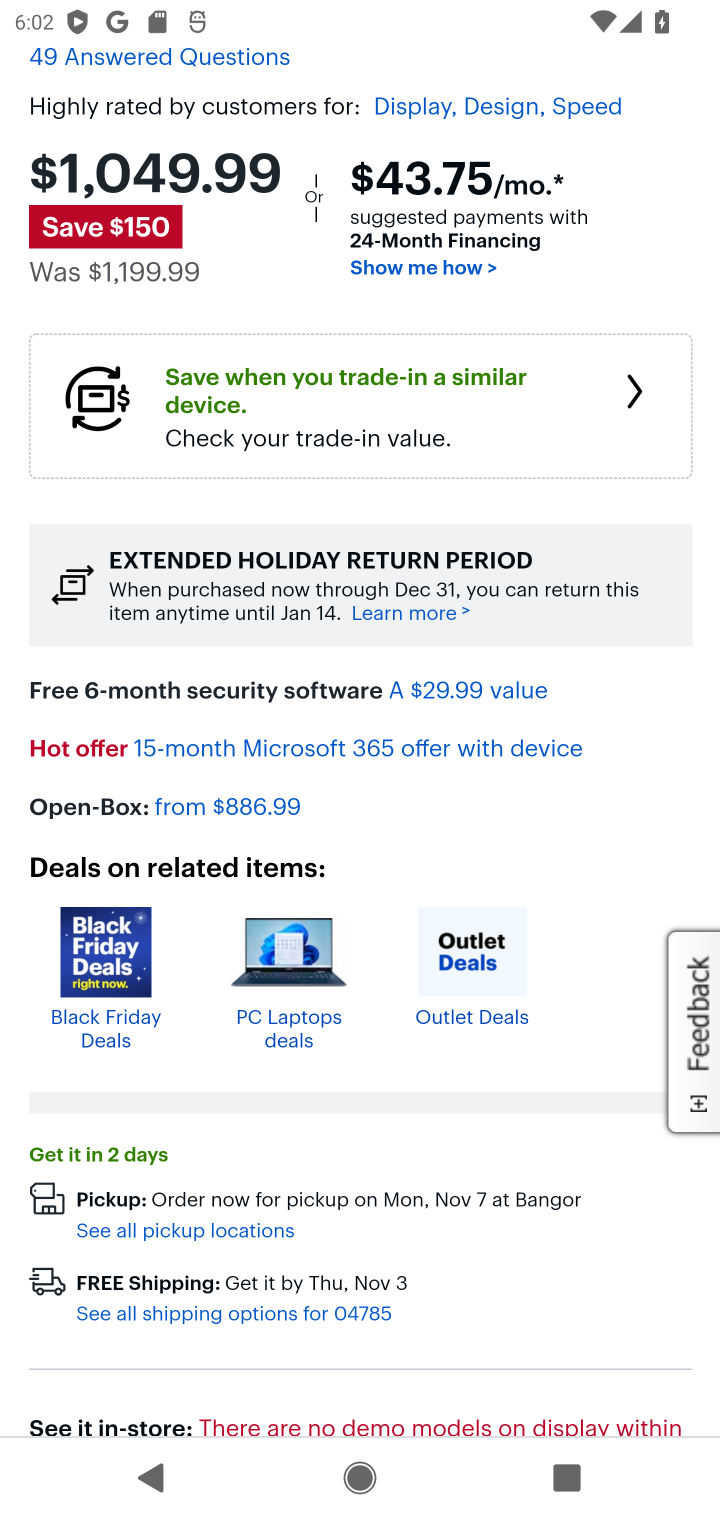
Step 28: drag from (525, 973) to (576, 538)
Your task to perform on an android device: Empty the shopping cart on bestbuy. Search for "asus zenbook" on bestbuy, select the first entry, and add it to the cart. Image 29: 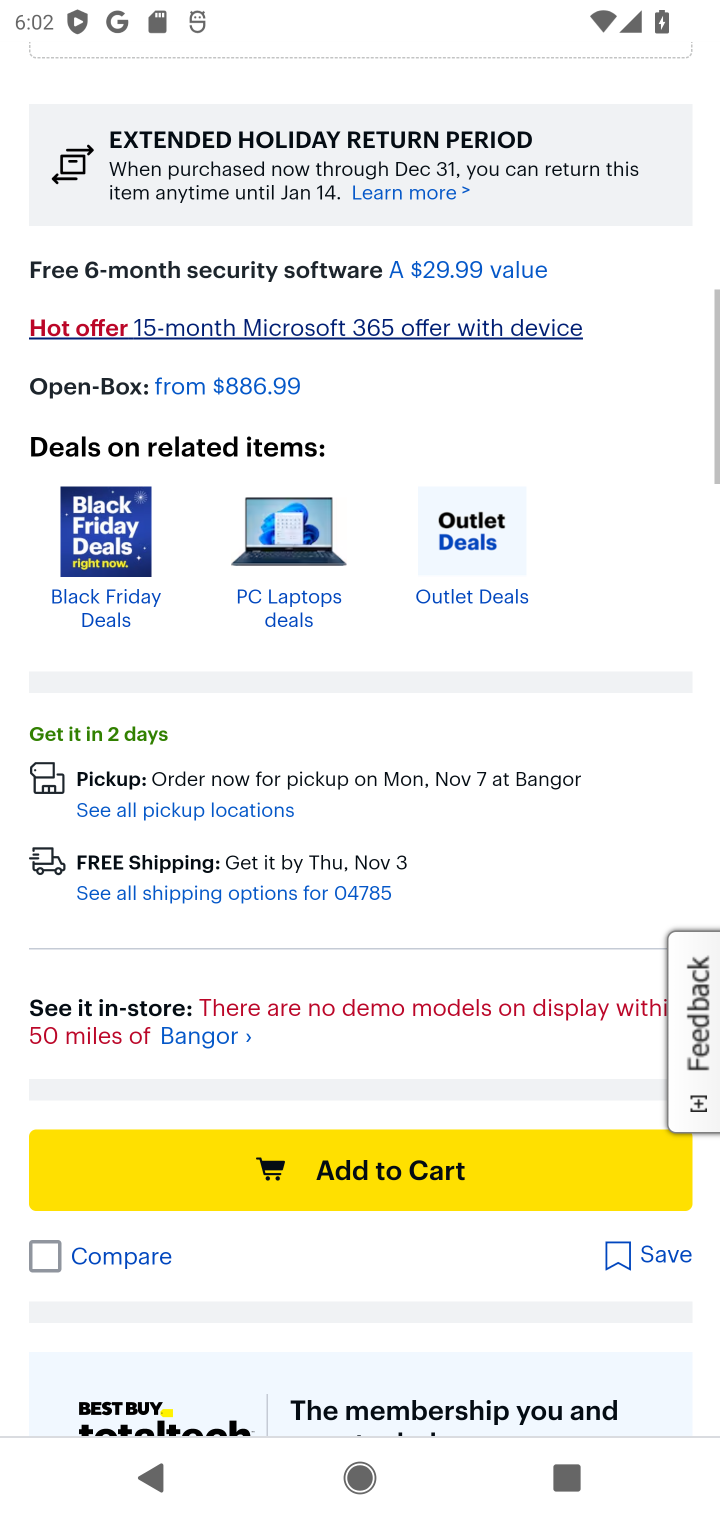
Step 29: drag from (503, 1049) to (528, 825)
Your task to perform on an android device: Empty the shopping cart on bestbuy. Search for "asus zenbook" on bestbuy, select the first entry, and add it to the cart. Image 30: 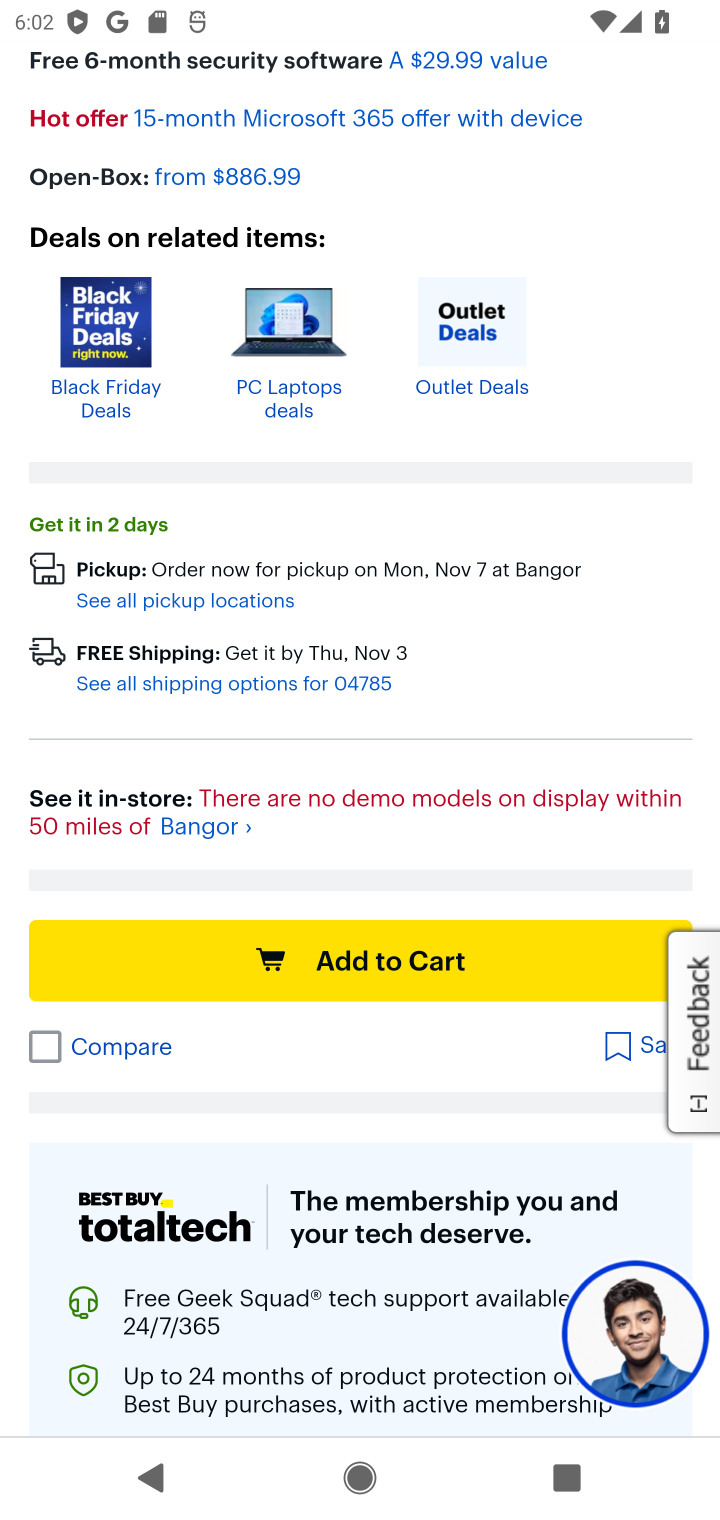
Step 30: click (453, 957)
Your task to perform on an android device: Empty the shopping cart on bestbuy. Search for "asus zenbook" on bestbuy, select the first entry, and add it to the cart. Image 31: 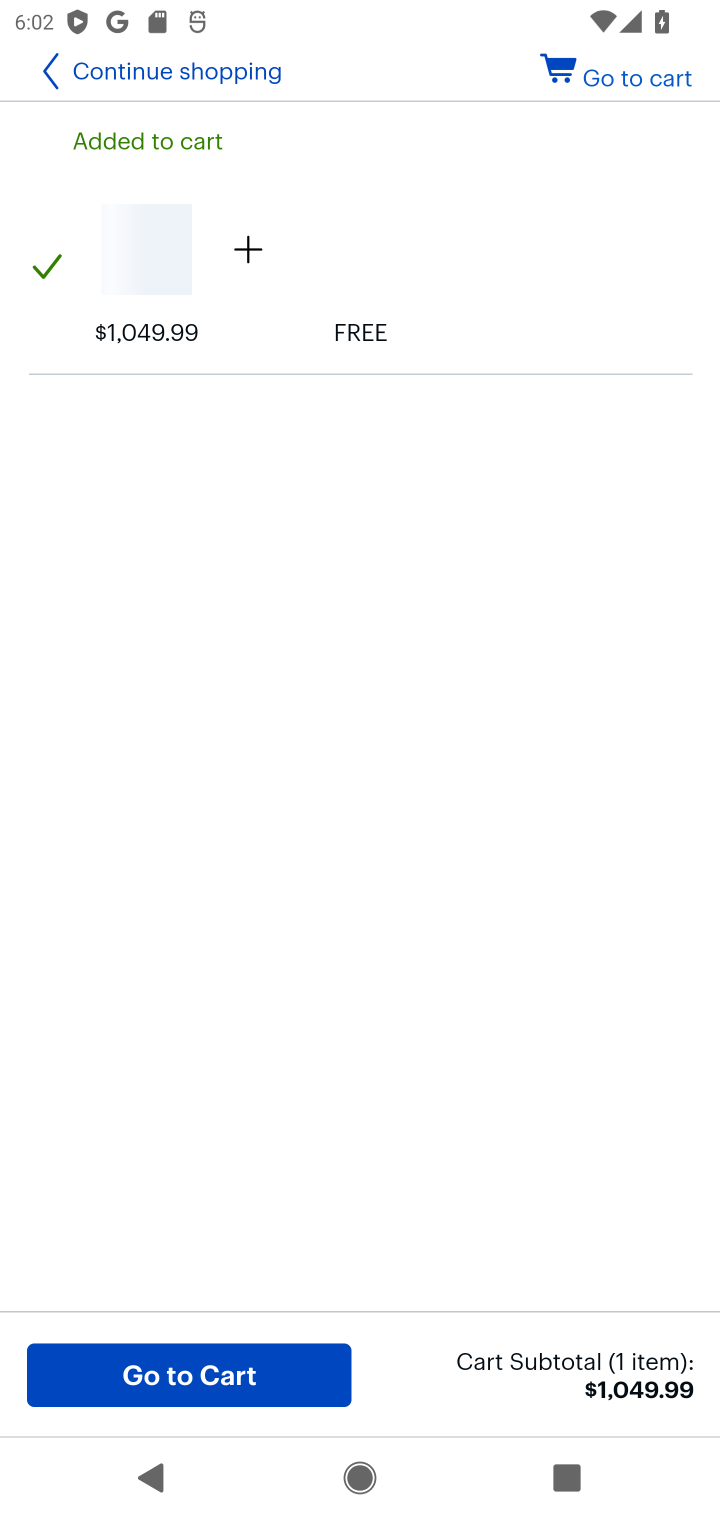
Step 31: click (670, 70)
Your task to perform on an android device: Empty the shopping cart on bestbuy. Search for "asus zenbook" on bestbuy, select the first entry, and add it to the cart. Image 32: 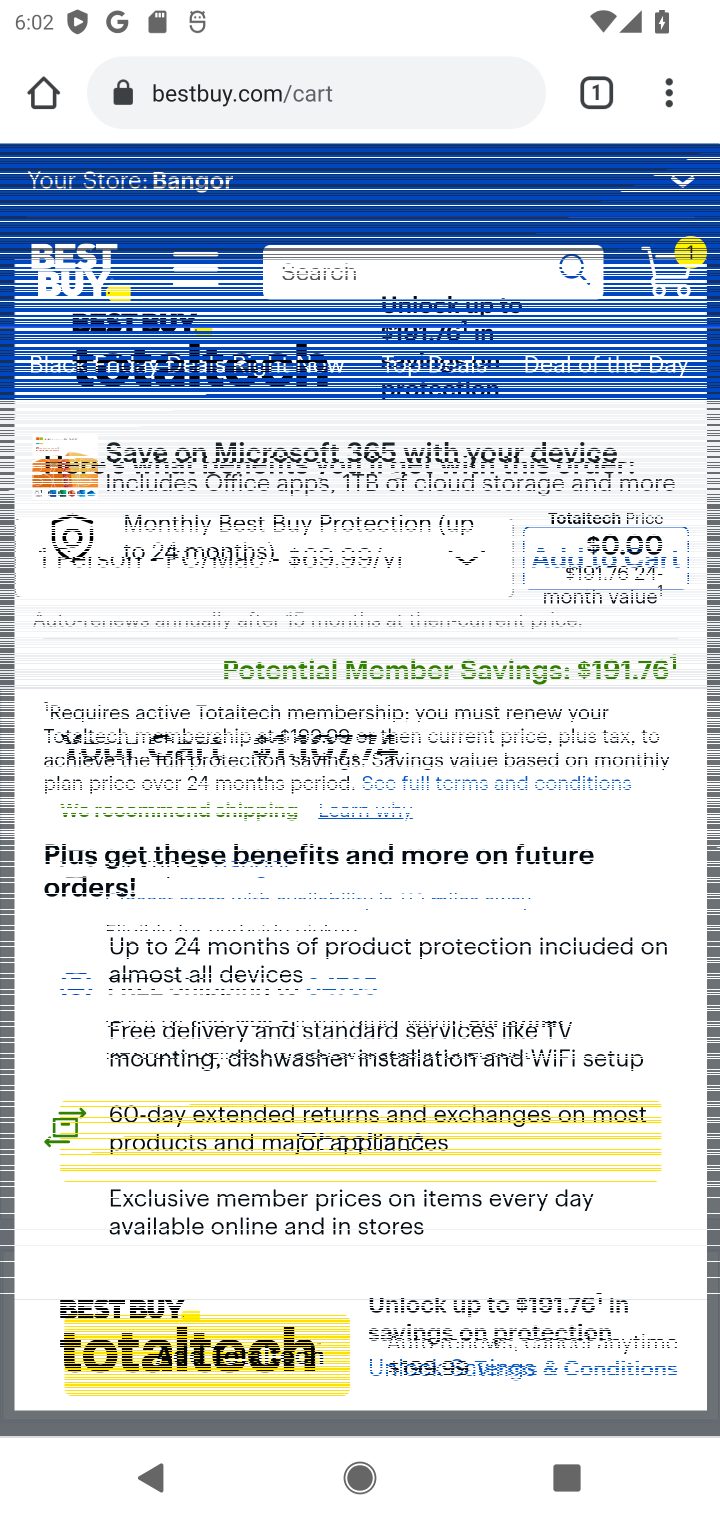
Step 32: click (471, 1176)
Your task to perform on an android device: Empty the shopping cart on bestbuy. Search for "asus zenbook" on bestbuy, select the first entry, and add it to the cart. Image 33: 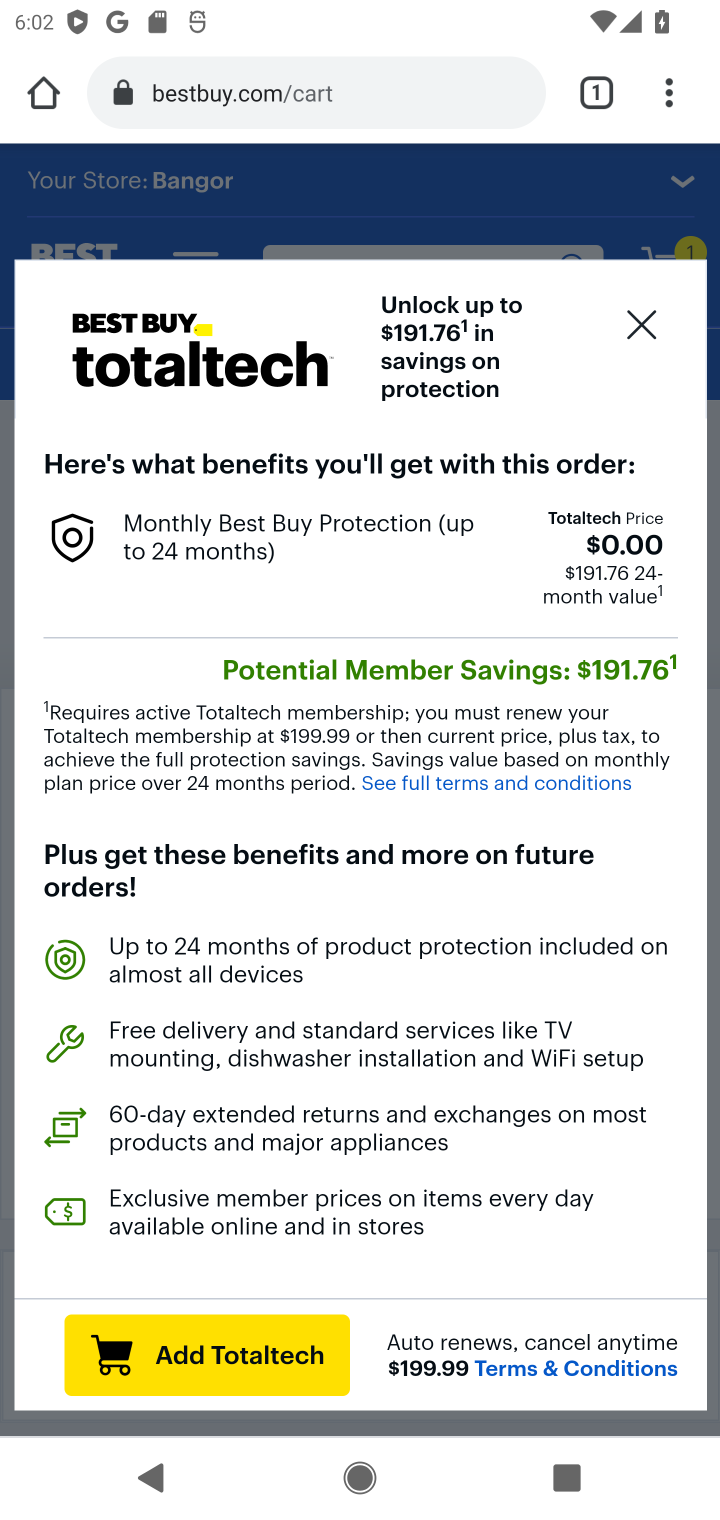
Step 33: click (652, 332)
Your task to perform on an android device: Empty the shopping cart on bestbuy. Search for "asus zenbook" on bestbuy, select the first entry, and add it to the cart. Image 34: 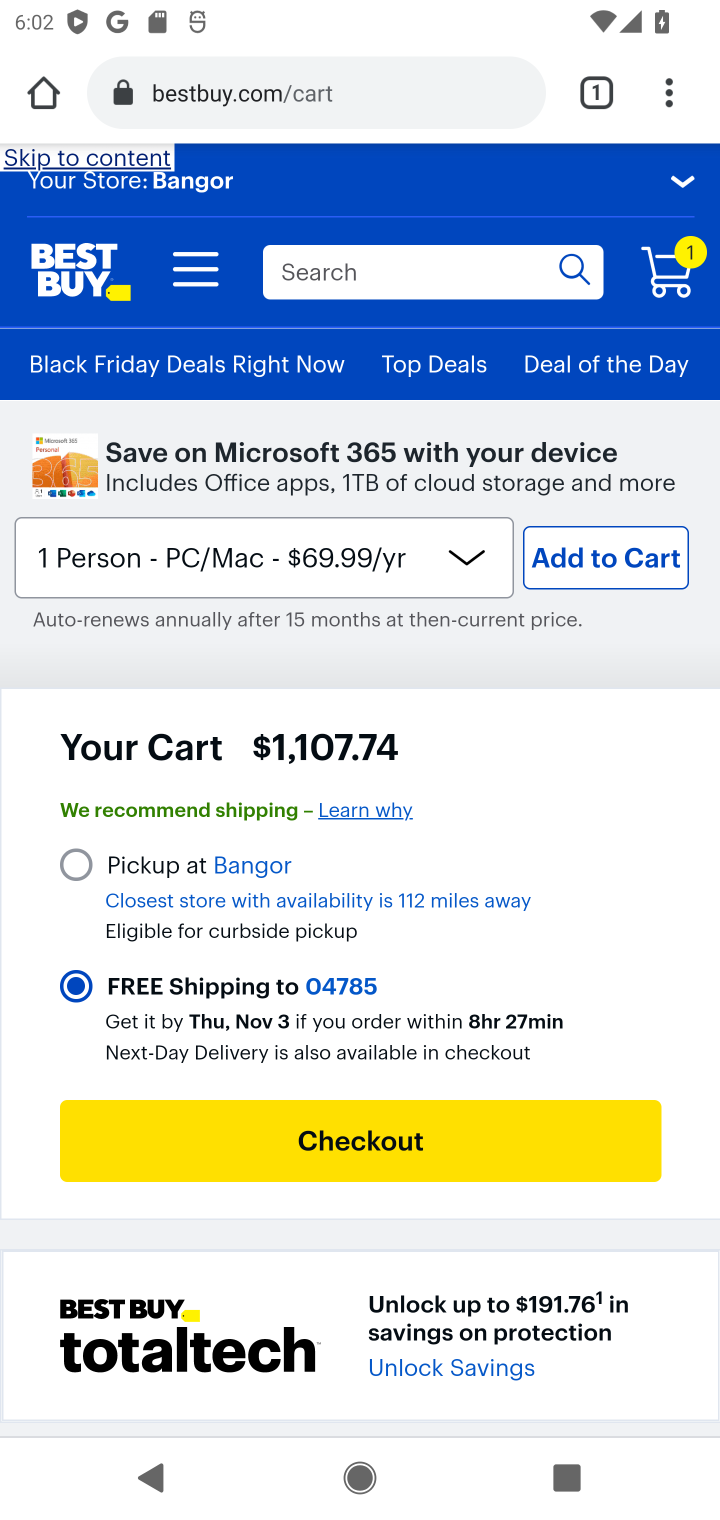
Step 34: click (693, 264)
Your task to perform on an android device: Empty the shopping cart on bestbuy. Search for "asus zenbook" on bestbuy, select the first entry, and add it to the cart. Image 35: 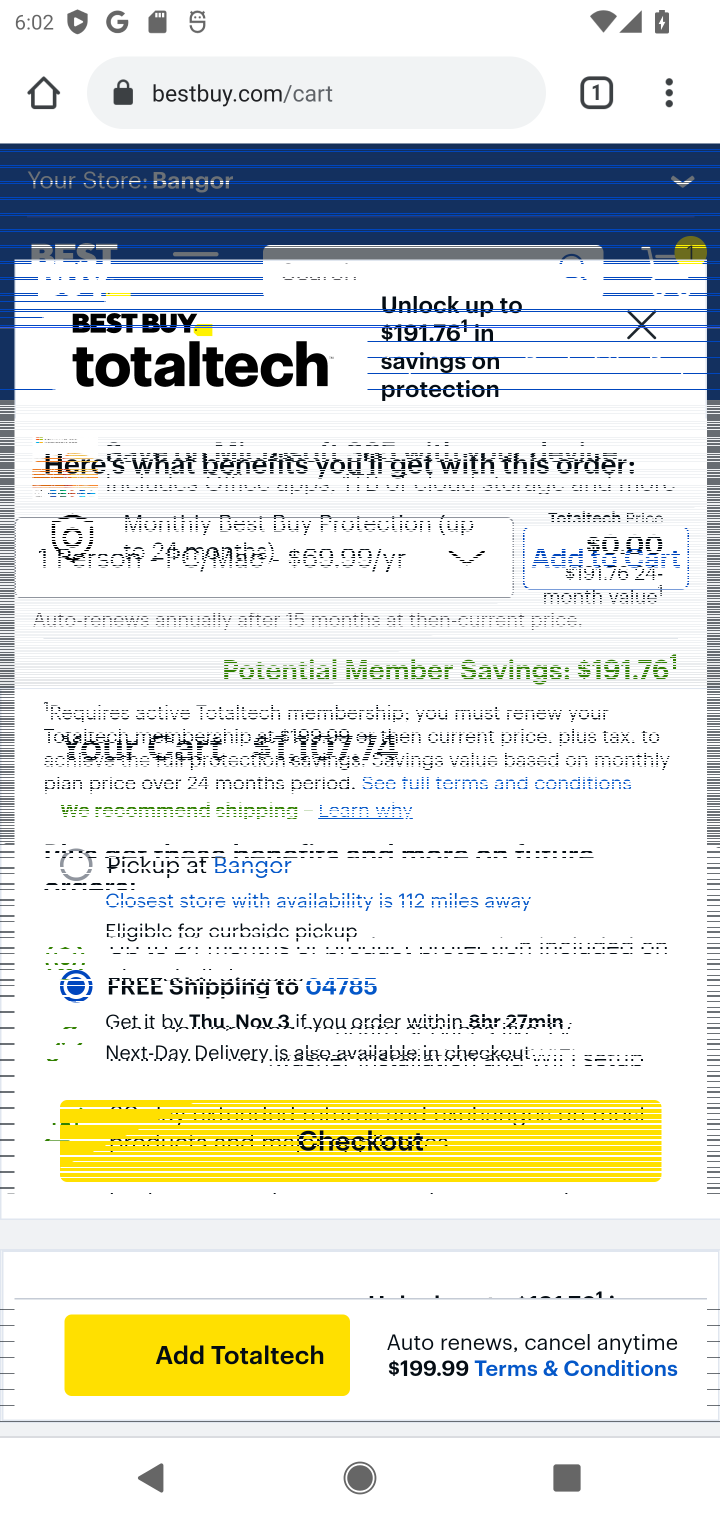
Step 35: click (205, 1145)
Your task to perform on an android device: Empty the shopping cart on bestbuy. Search for "asus zenbook" on bestbuy, select the first entry, and add it to the cart. Image 36: 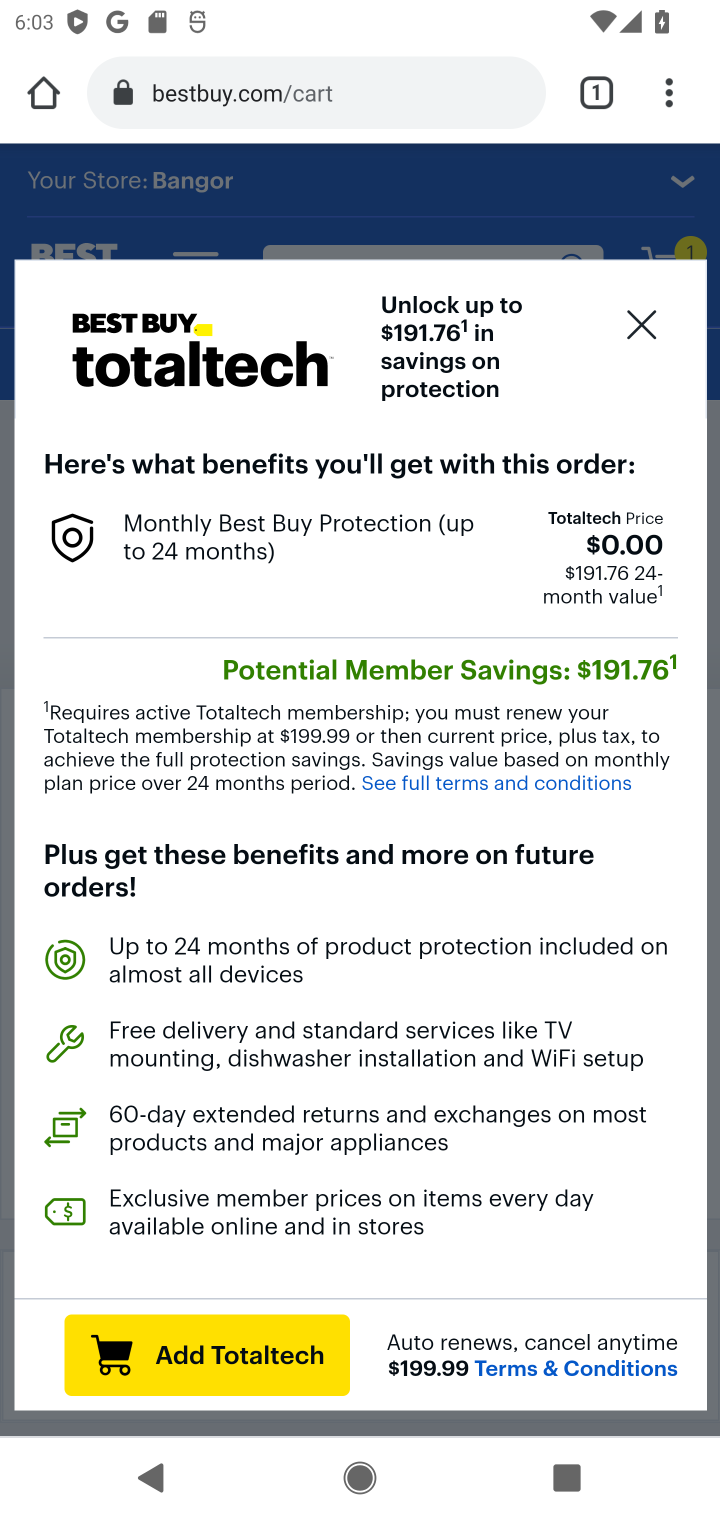
Step 36: click (207, 1337)
Your task to perform on an android device: Empty the shopping cart on bestbuy. Search for "asus zenbook" on bestbuy, select the first entry, and add it to the cart. Image 37: 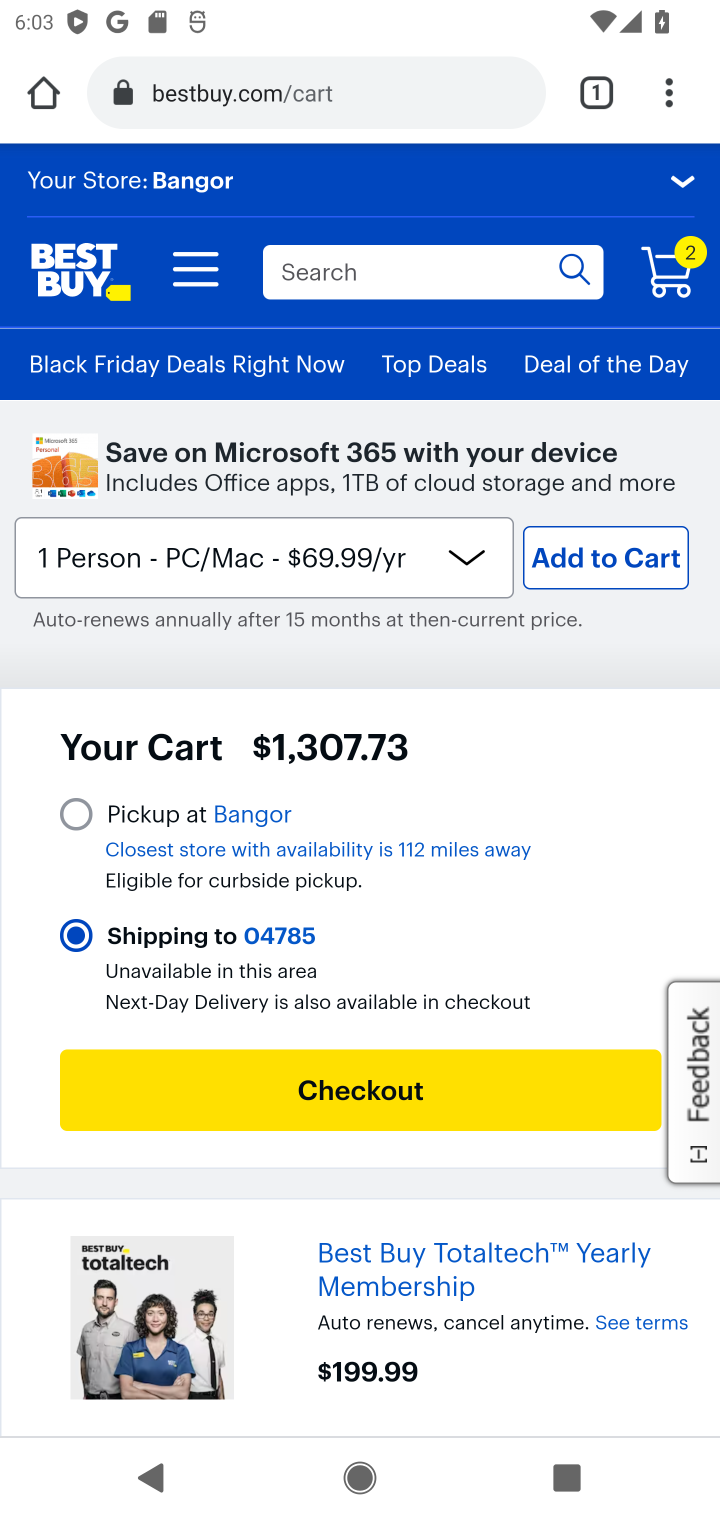
Step 37: click (630, 285)
Your task to perform on an android device: Empty the shopping cart on bestbuy. Search for "asus zenbook" on bestbuy, select the first entry, and add it to the cart. Image 38: 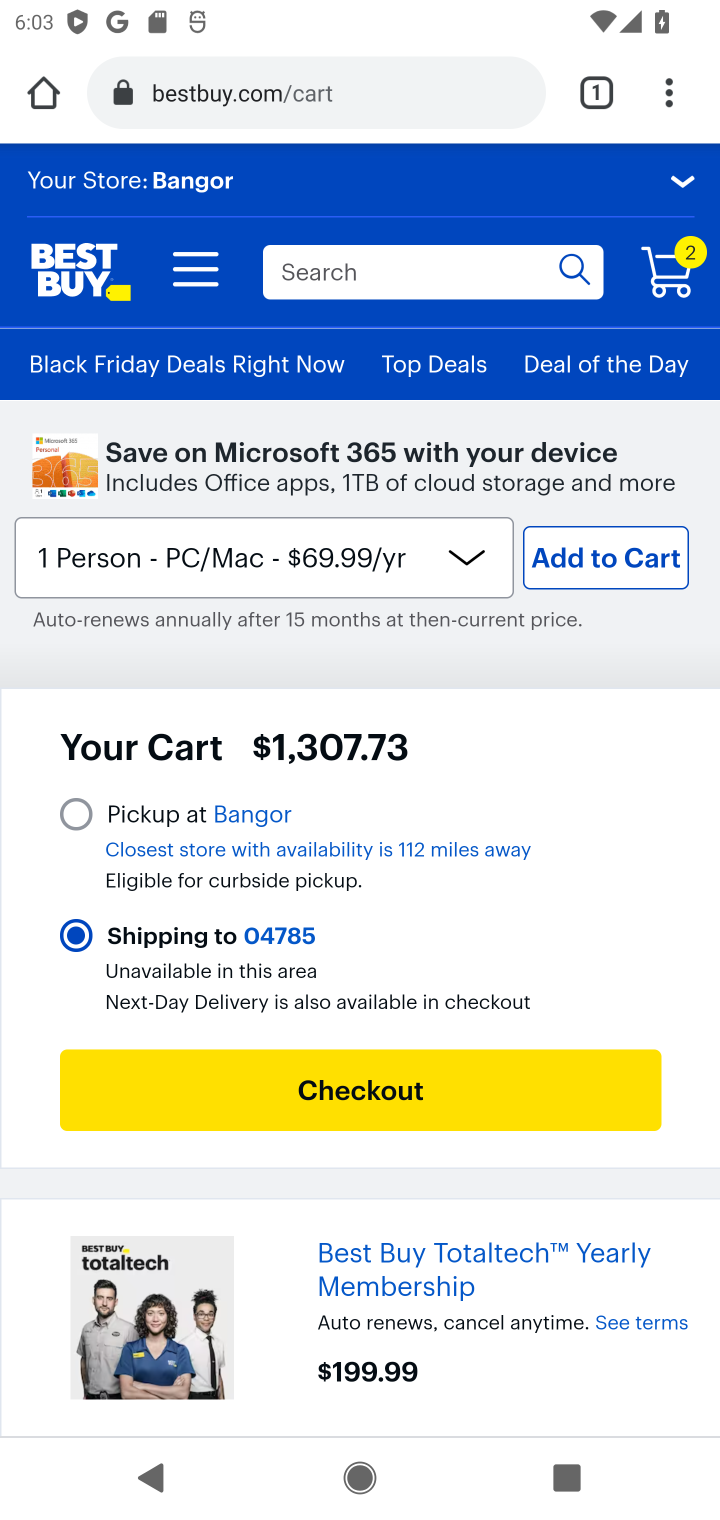
Step 38: drag from (323, 1142) to (351, 626)
Your task to perform on an android device: Empty the shopping cart on bestbuy. Search for "asus zenbook" on bestbuy, select the first entry, and add it to the cart. Image 39: 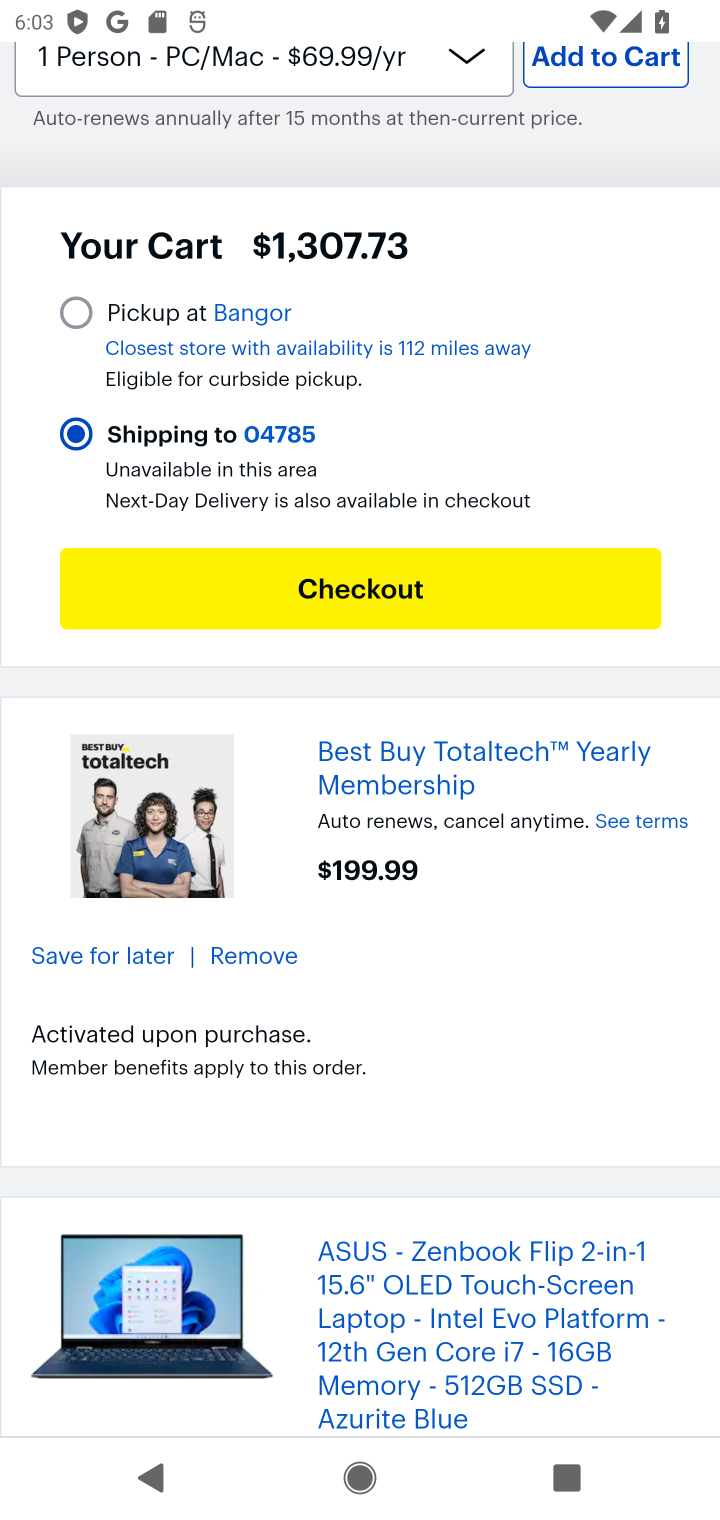
Step 39: click (265, 958)
Your task to perform on an android device: Empty the shopping cart on bestbuy. Search for "asus zenbook" on bestbuy, select the first entry, and add it to the cart. Image 40: 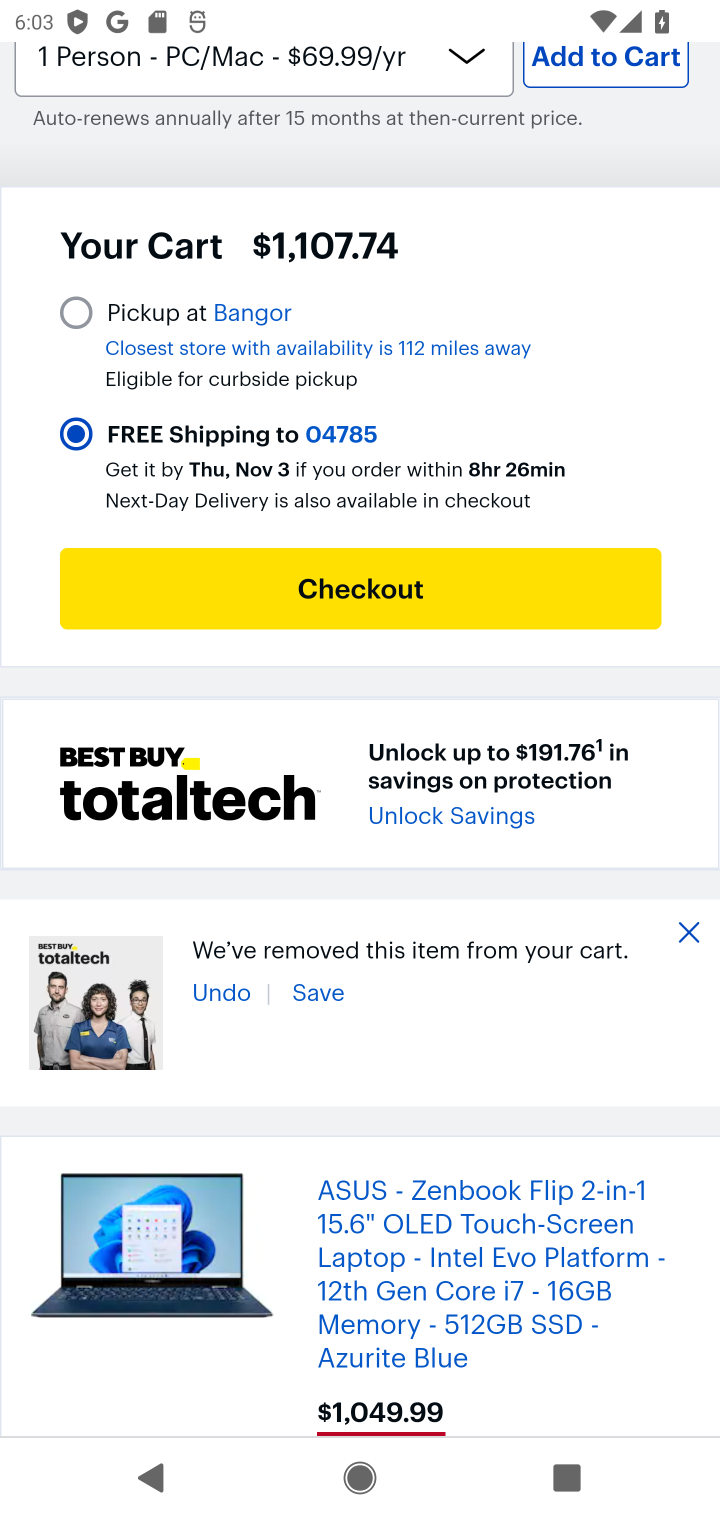
Step 40: click (343, 600)
Your task to perform on an android device: Empty the shopping cart on bestbuy. Search for "asus zenbook" on bestbuy, select the first entry, and add it to the cart. Image 41: 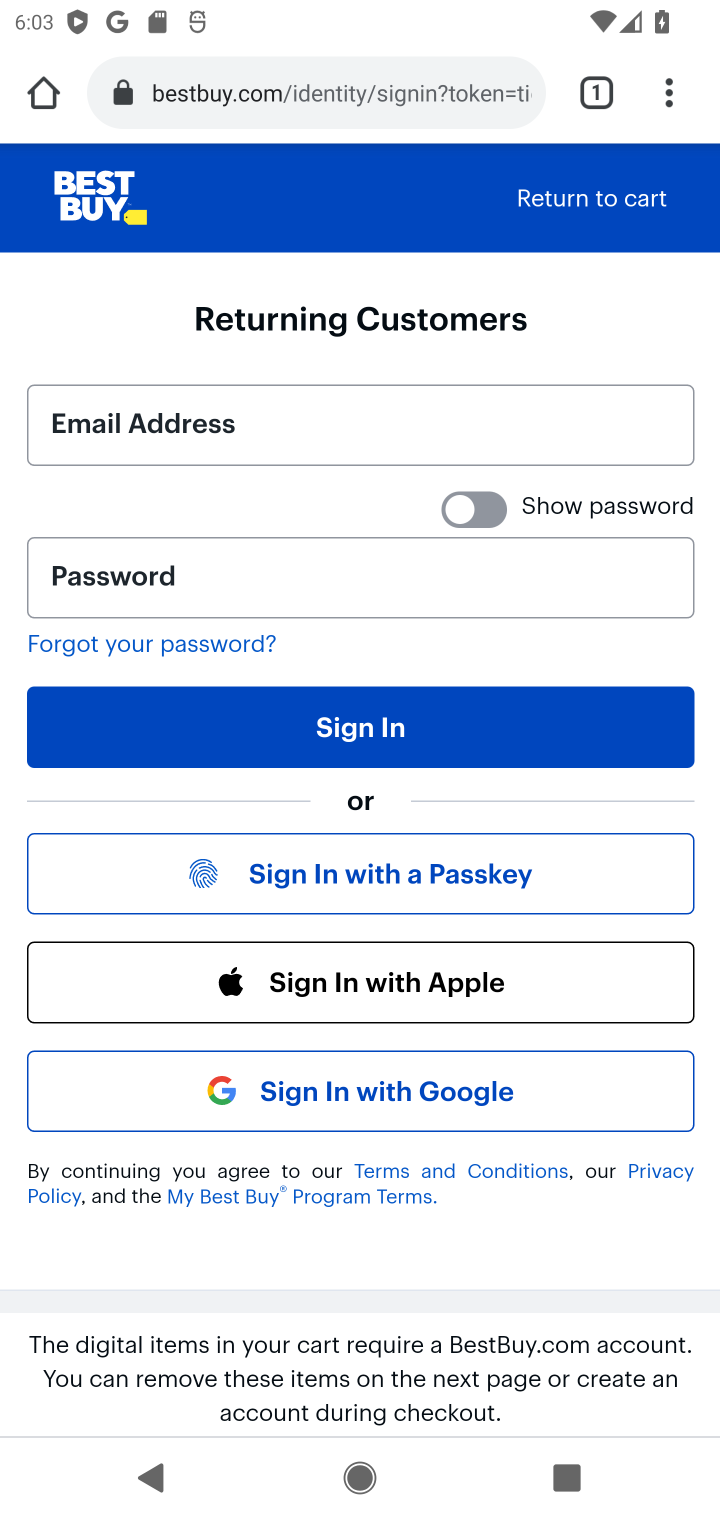
Step 41: task complete